Your task to perform on an android device: Search for the best coffee tables on Crate & Barrel Image 0: 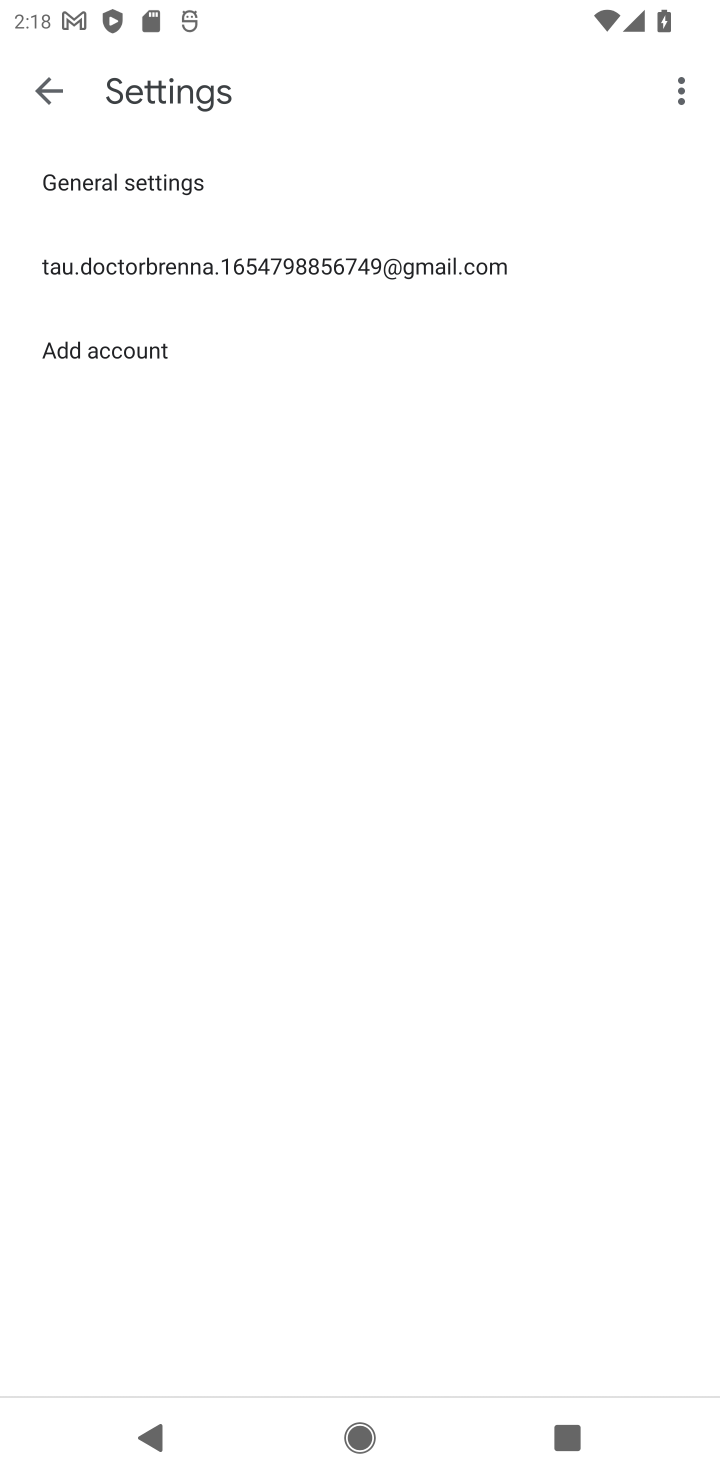
Step 0: press home button
Your task to perform on an android device: Search for the best coffee tables on Crate & Barrel Image 1: 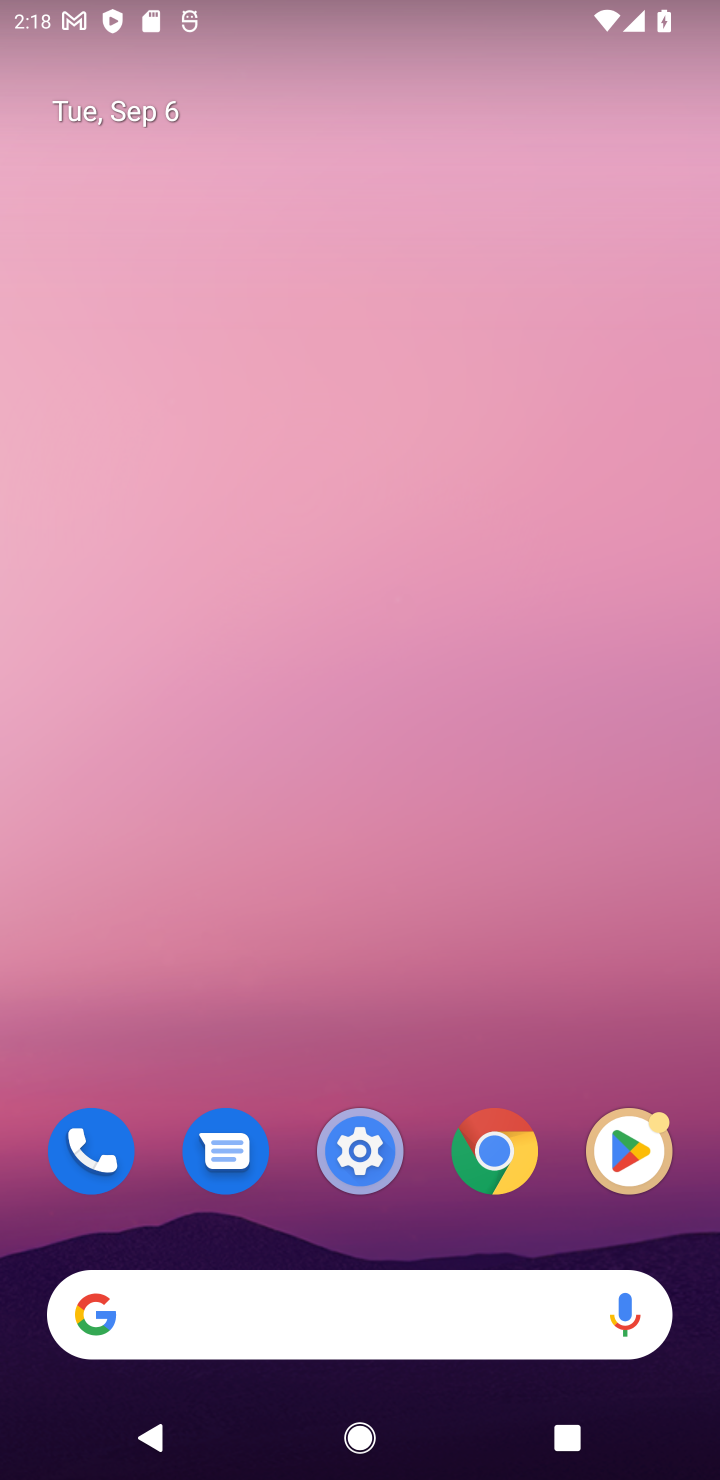
Step 1: click (512, 1131)
Your task to perform on an android device: Search for the best coffee tables on Crate & Barrel Image 2: 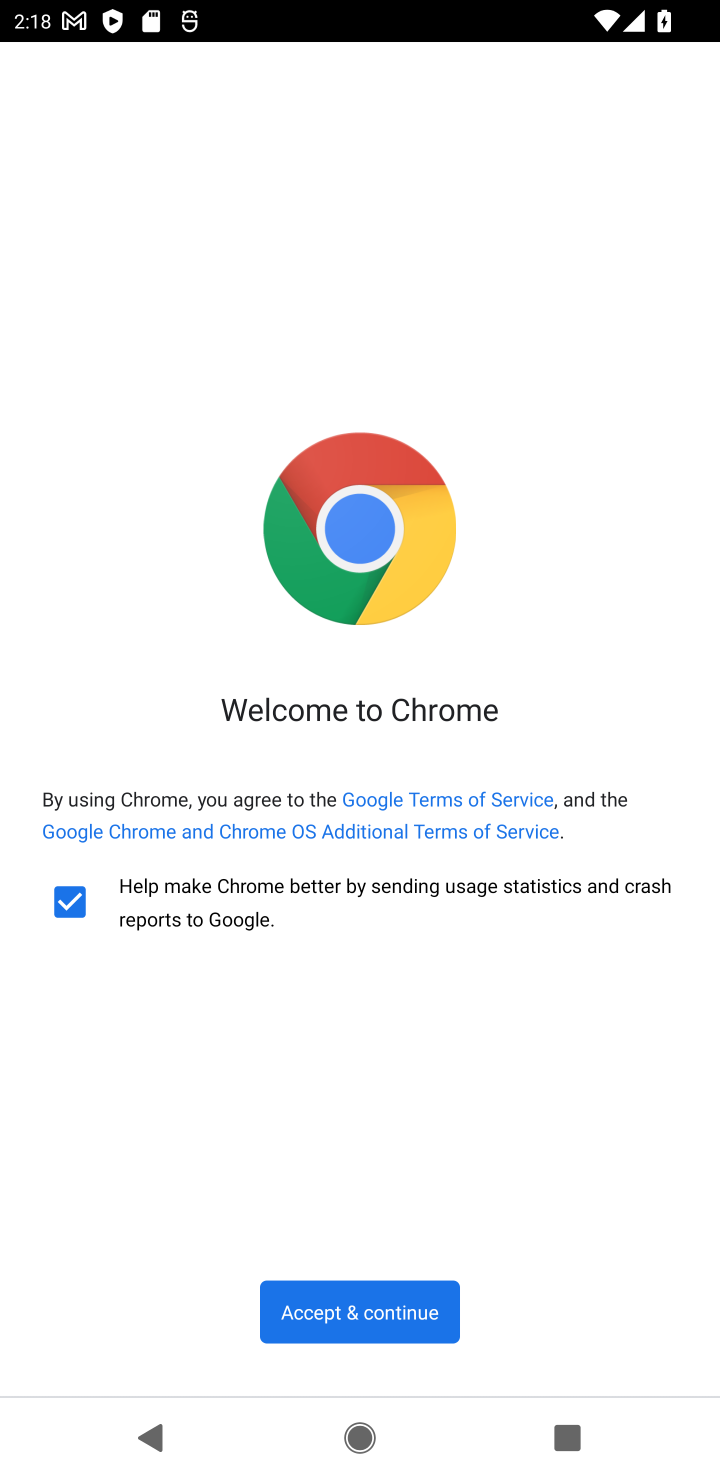
Step 2: click (400, 1318)
Your task to perform on an android device: Search for the best coffee tables on Crate & Barrel Image 3: 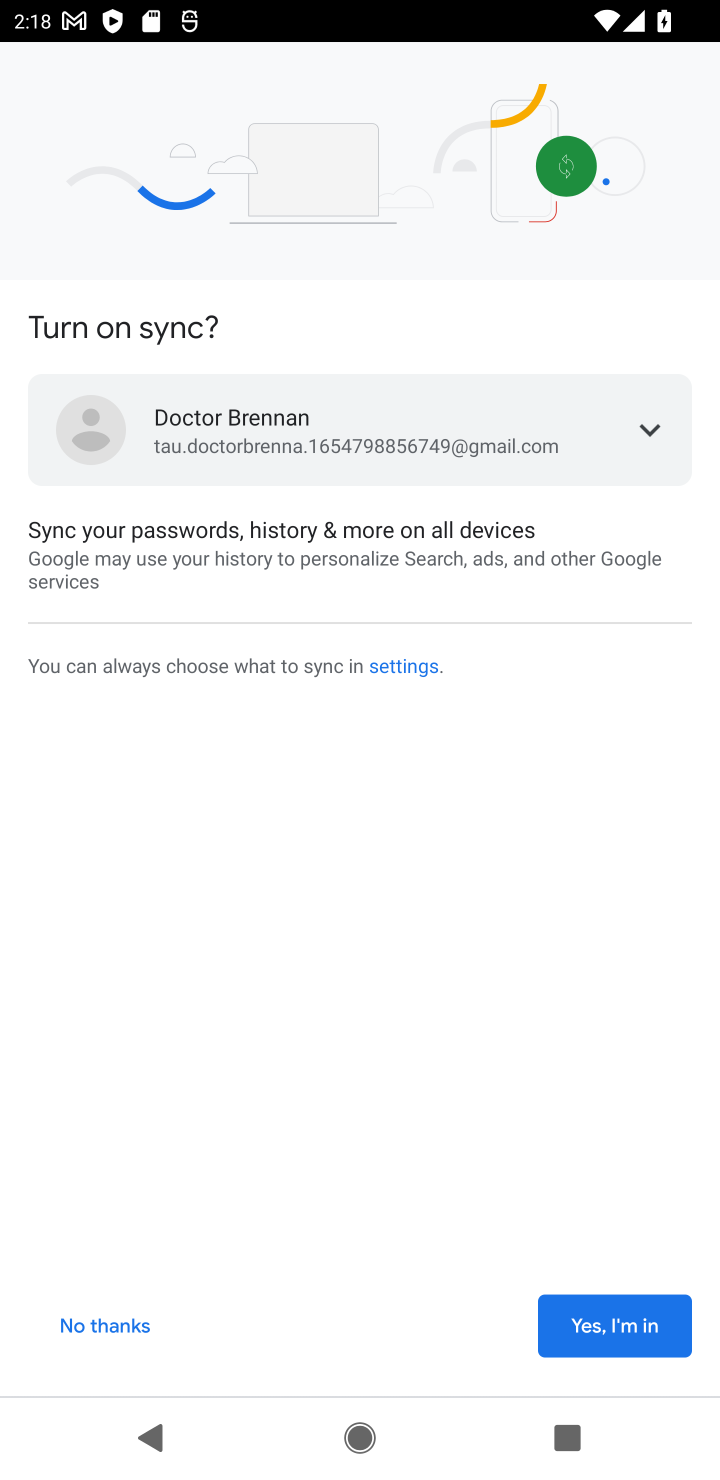
Step 3: click (605, 1321)
Your task to perform on an android device: Search for the best coffee tables on Crate & Barrel Image 4: 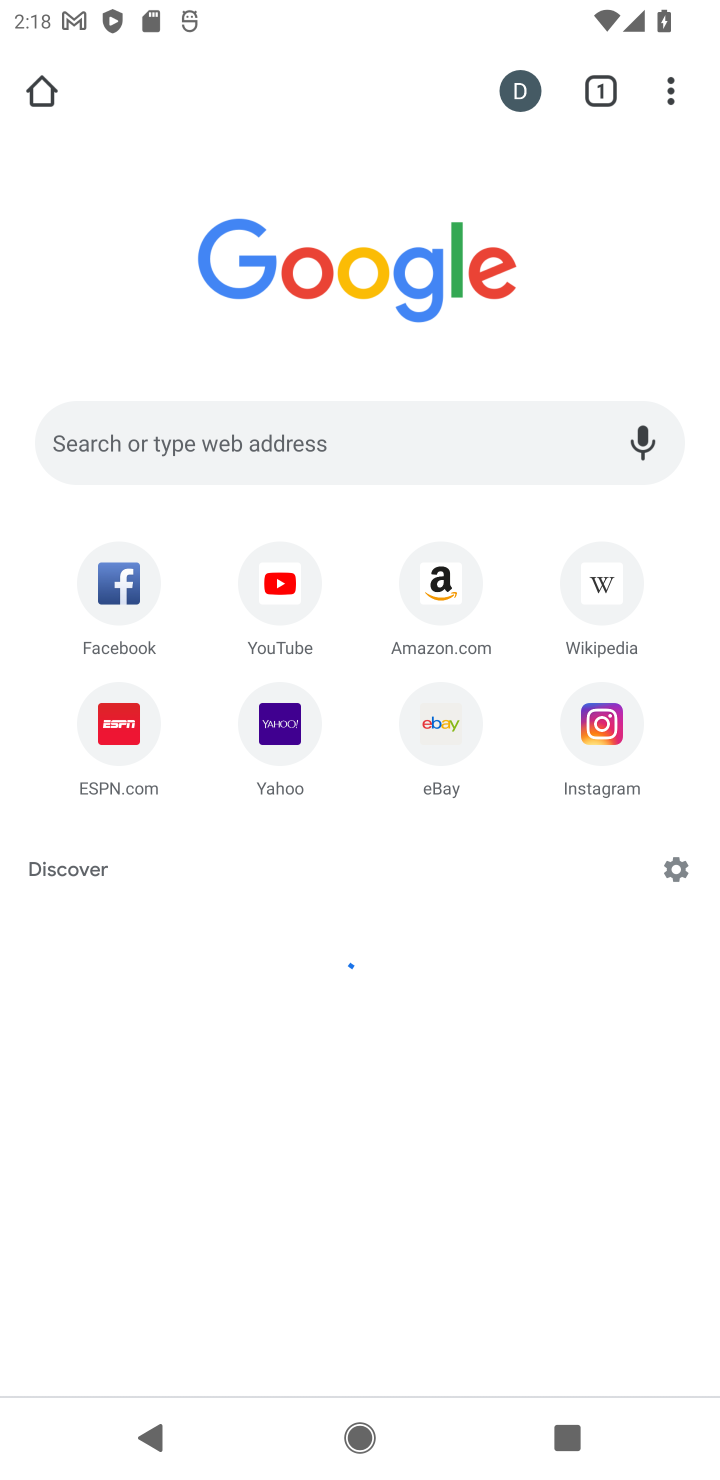
Step 4: click (278, 433)
Your task to perform on an android device: Search for the best coffee tables on Crate & Barrel Image 5: 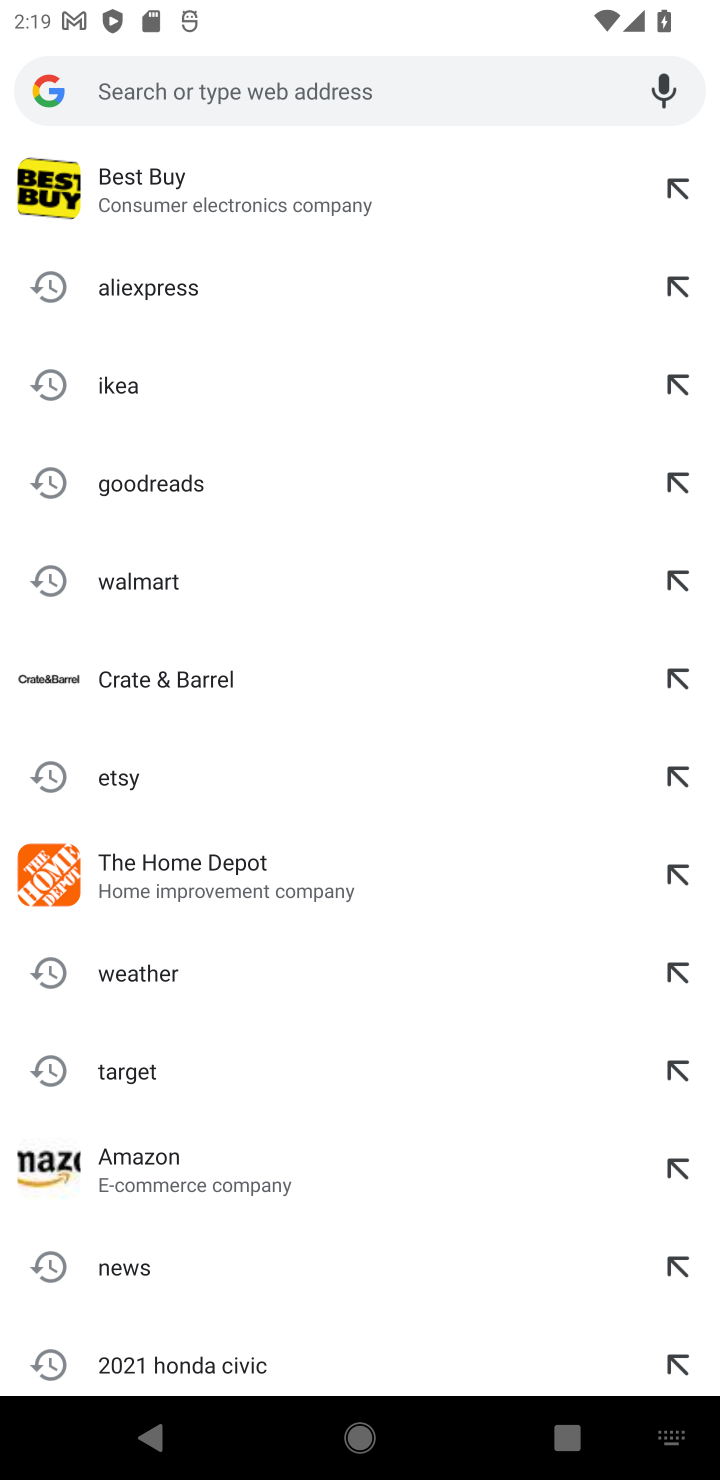
Step 5: type "cr"
Your task to perform on an android device: Search for the best coffee tables on Crate & Barrel Image 6: 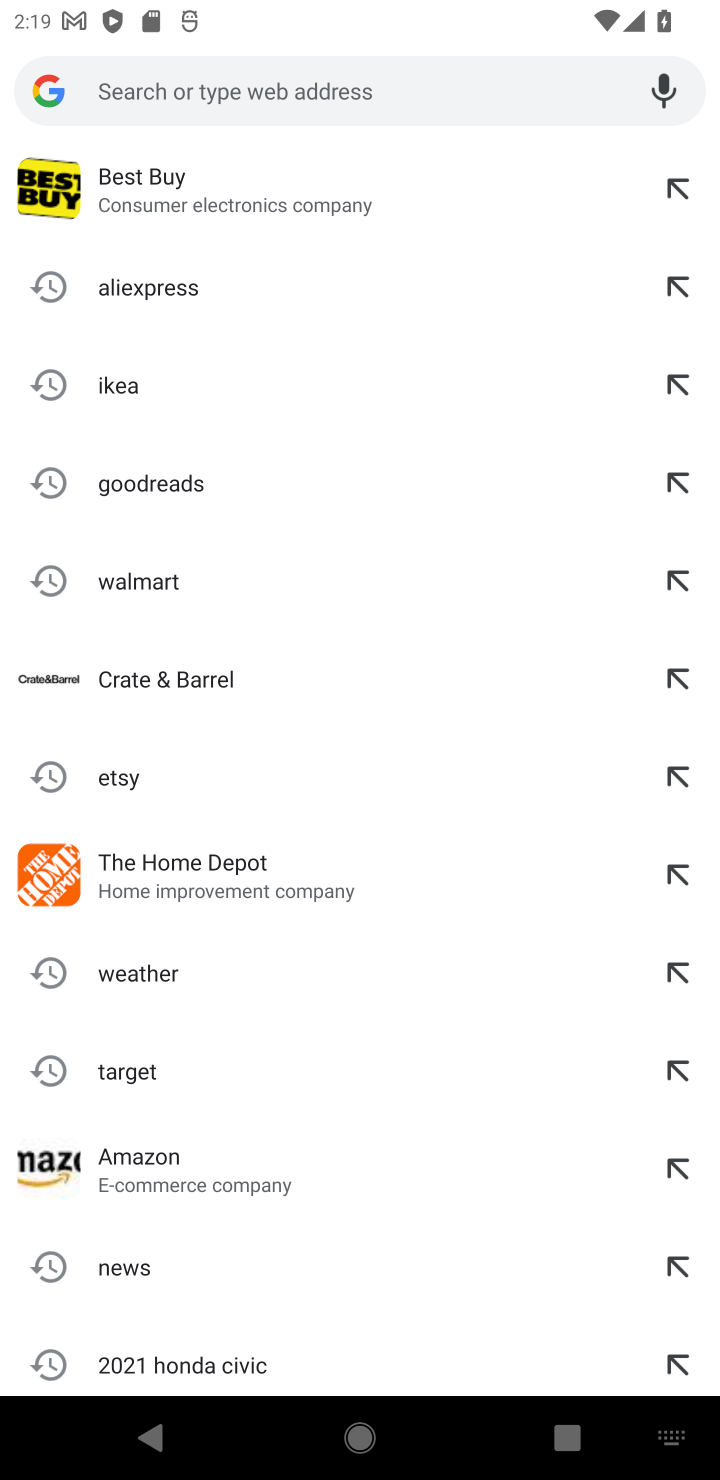
Step 6: click (182, 685)
Your task to perform on an android device: Search for the best coffee tables on Crate & Barrel Image 7: 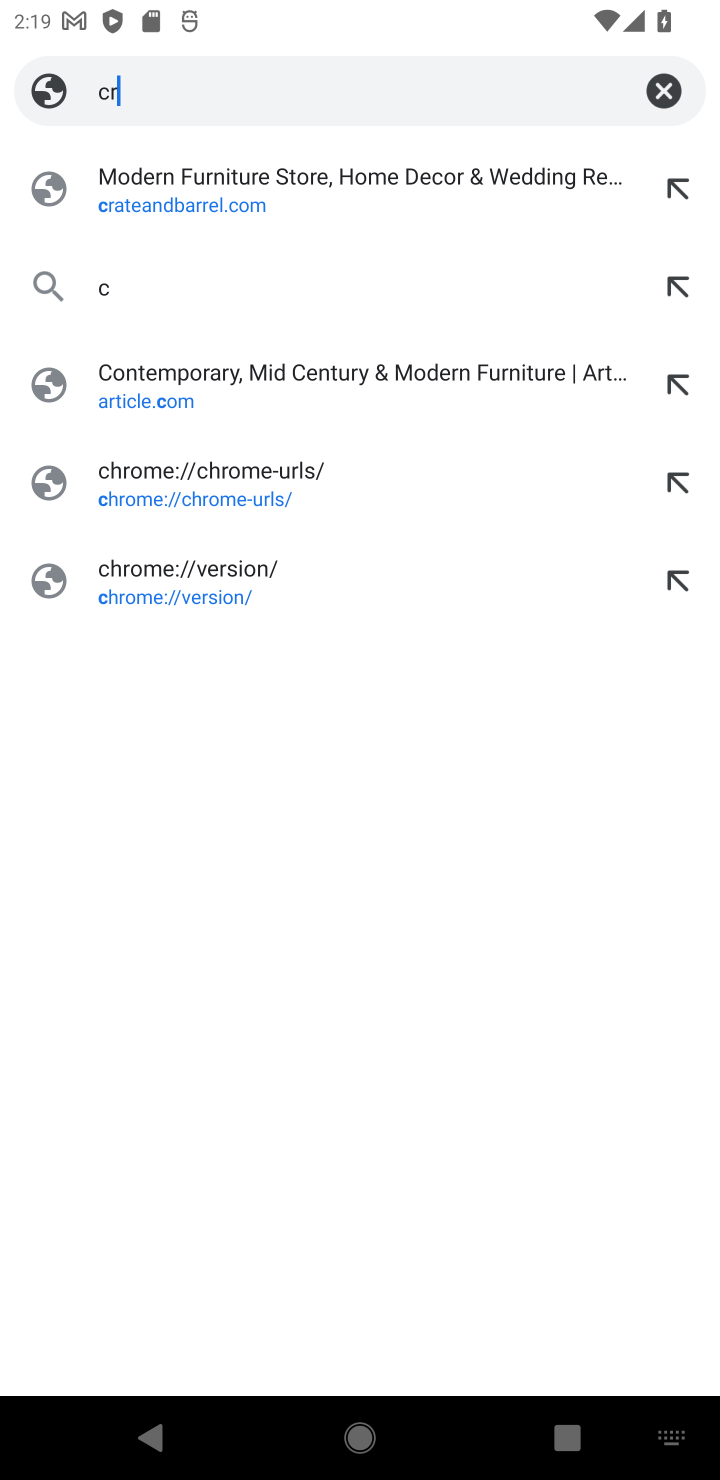
Step 7: type "crate & barrel"
Your task to perform on an android device: Search for the best coffee tables on Crate & Barrel Image 8: 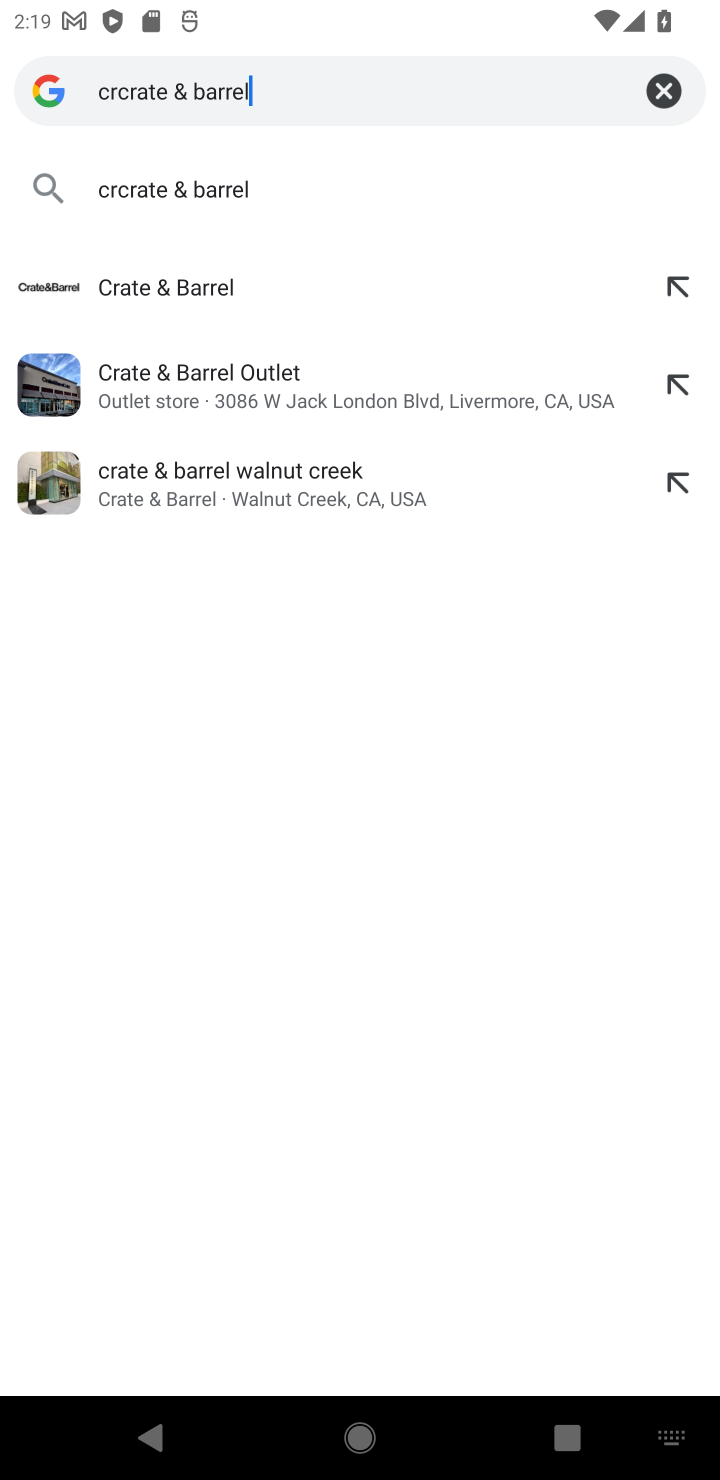
Step 8: click (115, 276)
Your task to perform on an android device: Search for the best coffee tables on Crate & Barrel Image 9: 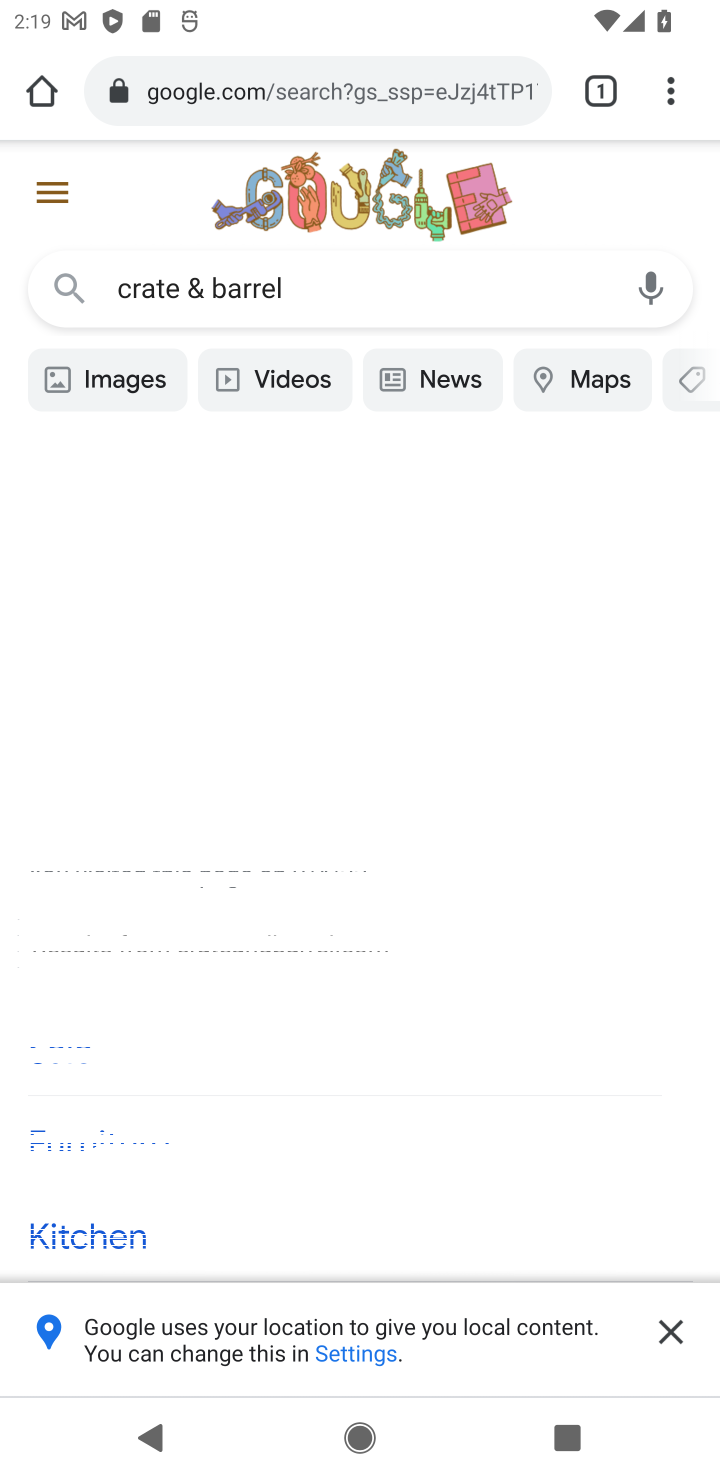
Step 9: click (672, 1338)
Your task to perform on an android device: Search for the best coffee tables on Crate & Barrel Image 10: 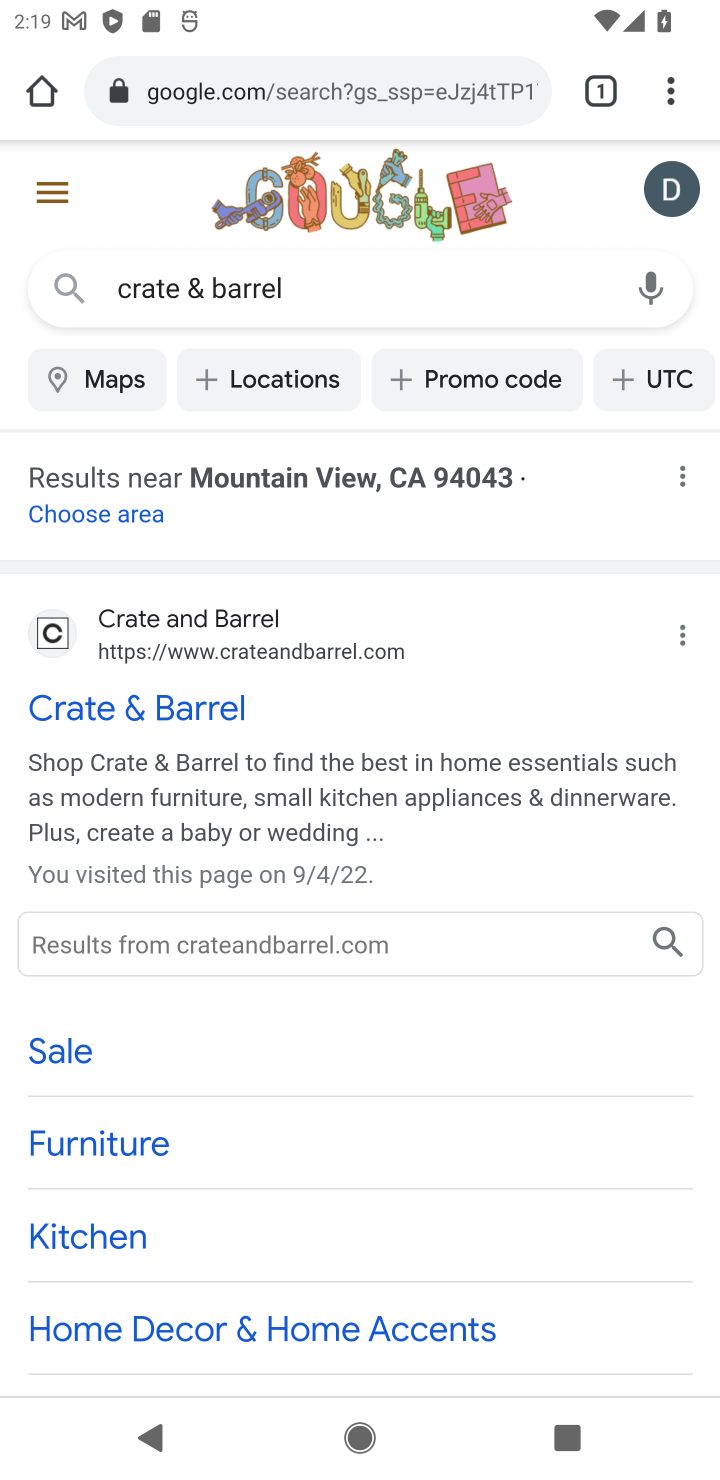
Step 10: drag from (462, 739) to (509, 458)
Your task to perform on an android device: Search for the best coffee tables on Crate & Barrel Image 11: 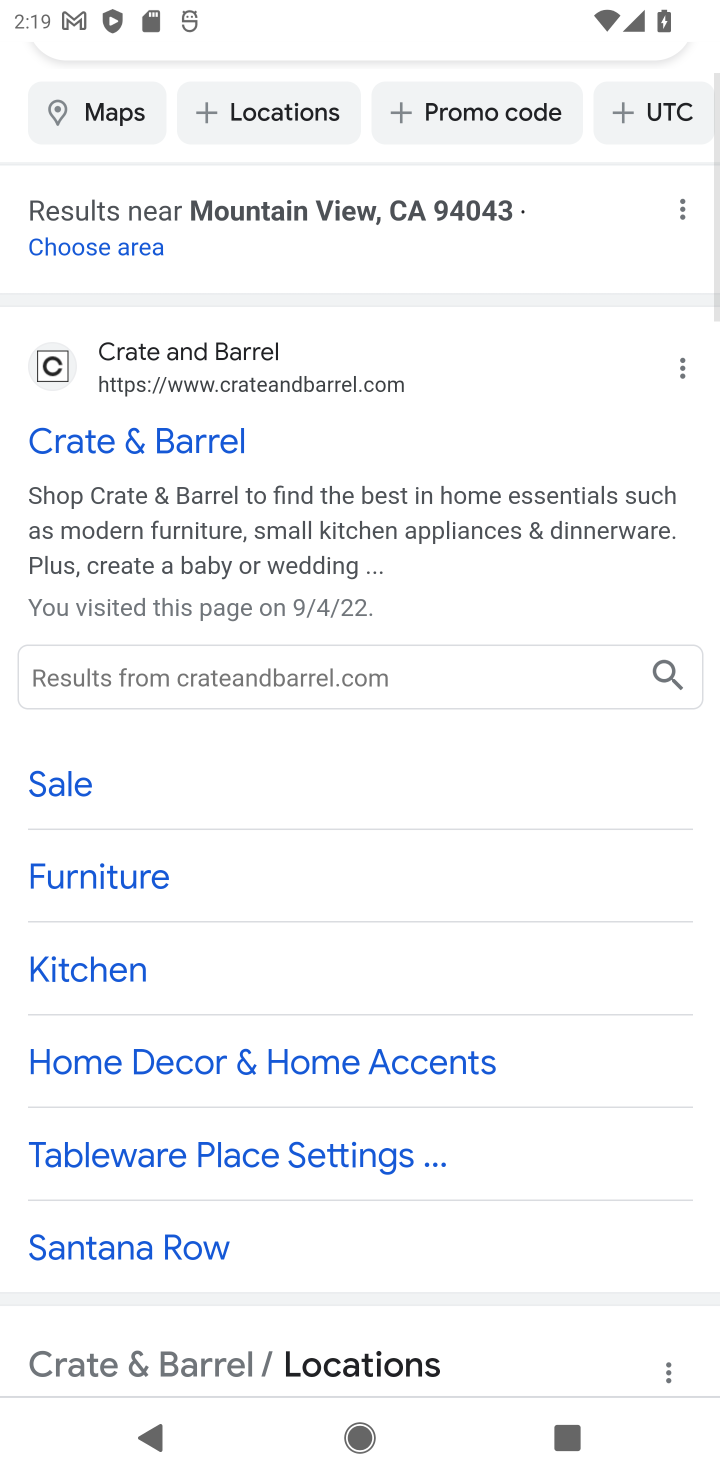
Step 11: drag from (555, 790) to (518, 326)
Your task to perform on an android device: Search for the best coffee tables on Crate & Barrel Image 12: 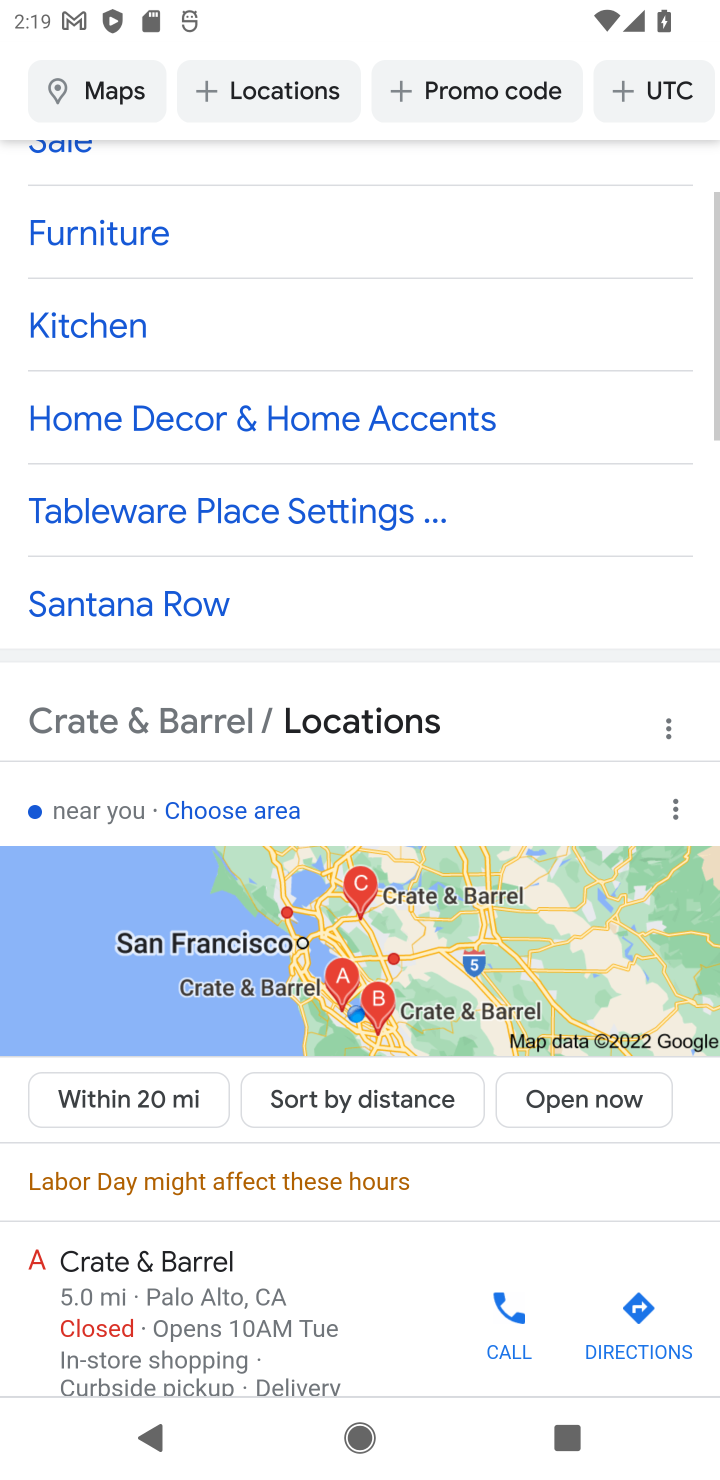
Step 12: drag from (299, 1354) to (418, 508)
Your task to perform on an android device: Search for the best coffee tables on Crate & Barrel Image 13: 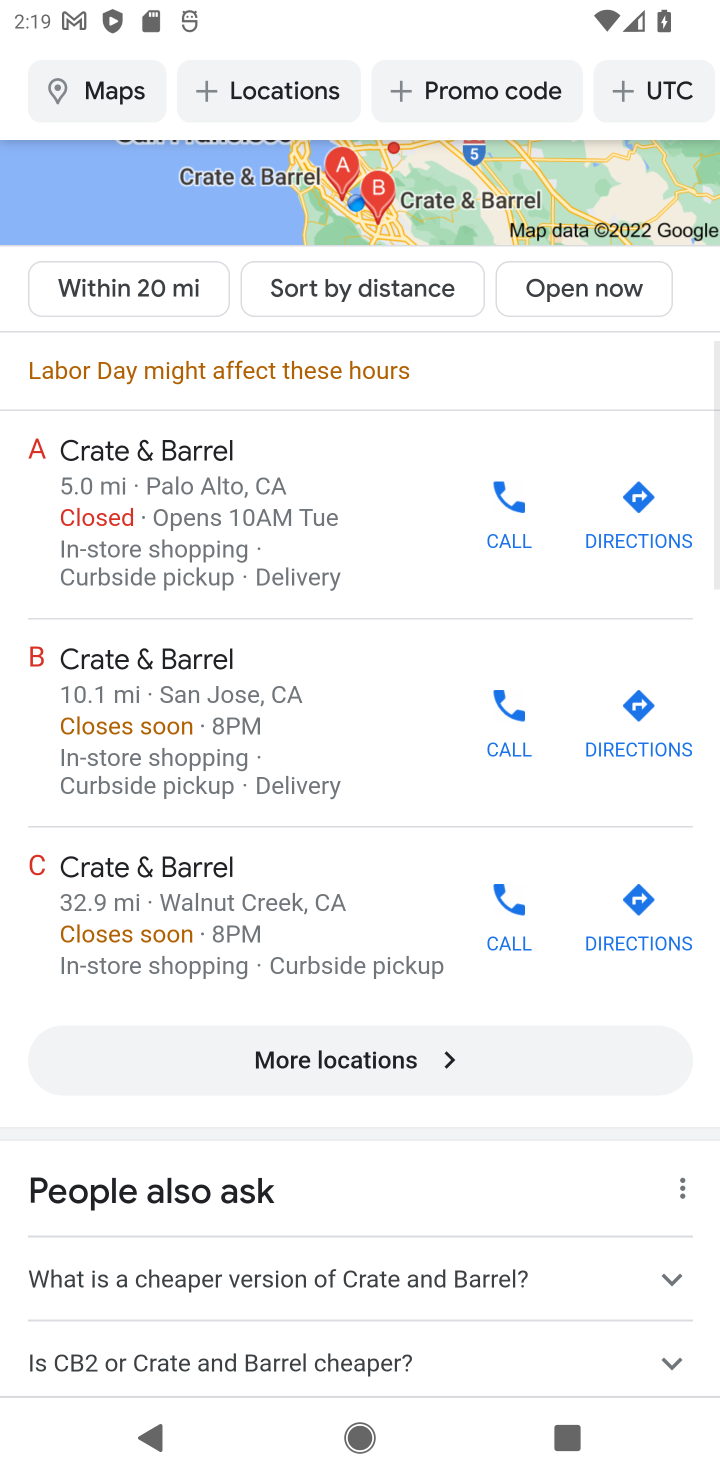
Step 13: drag from (330, 1090) to (456, 296)
Your task to perform on an android device: Search for the best coffee tables on Crate & Barrel Image 14: 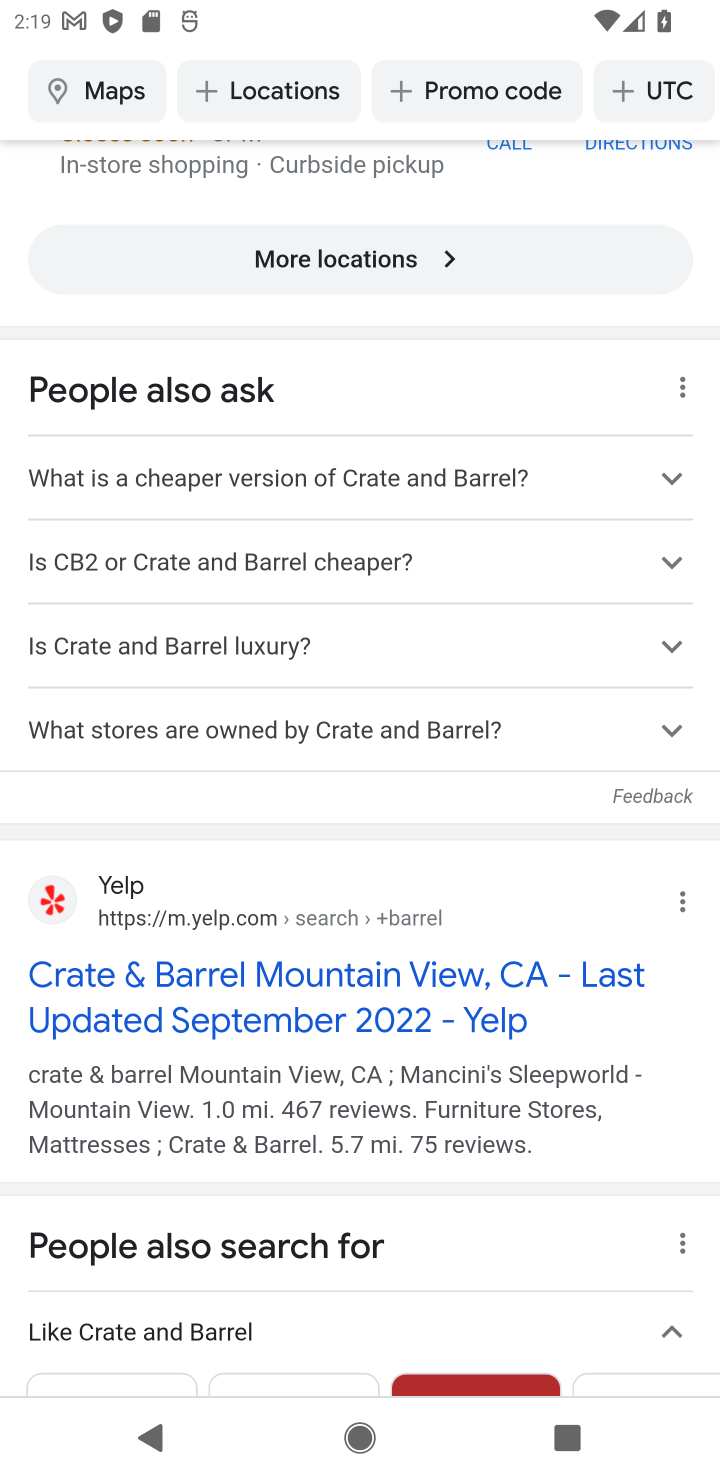
Step 14: drag from (470, 629) to (468, 1190)
Your task to perform on an android device: Search for the best coffee tables on Crate & Barrel Image 15: 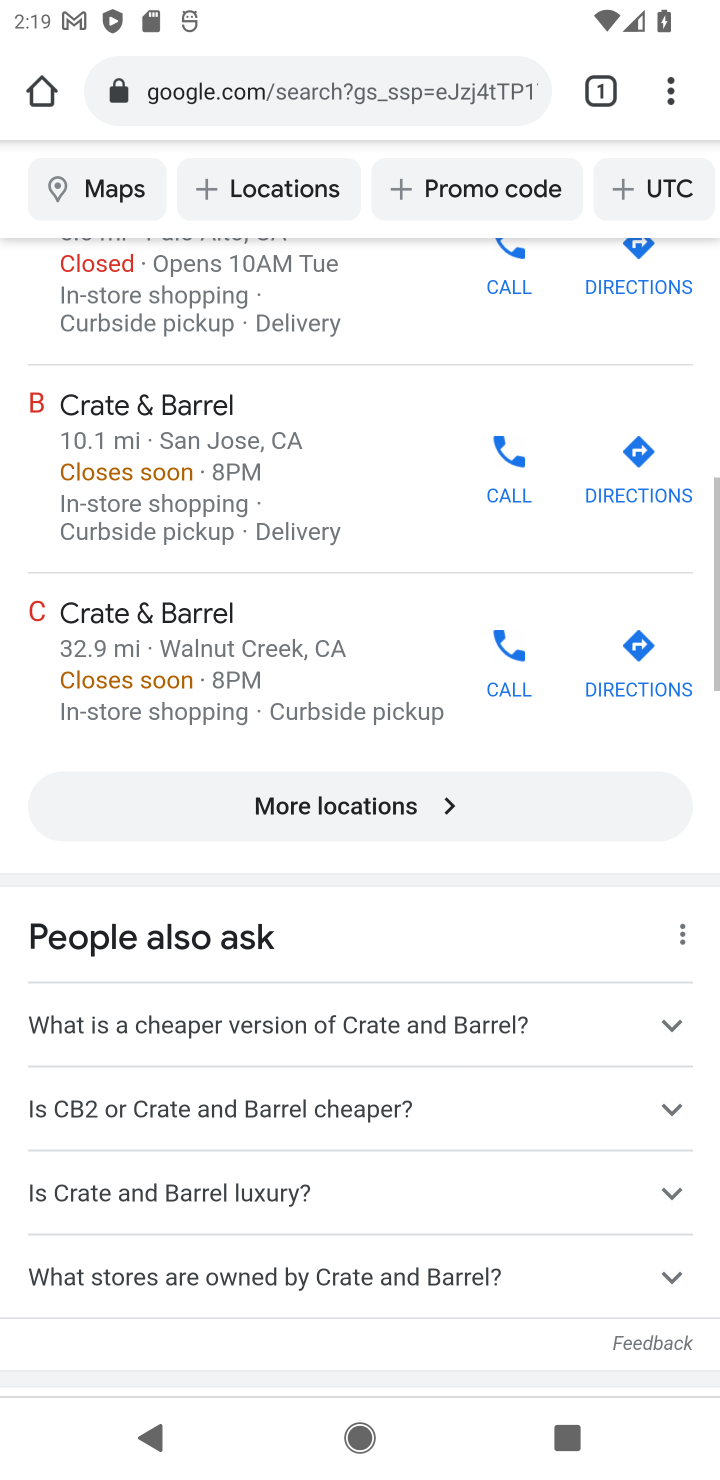
Step 15: drag from (327, 608) to (259, 1309)
Your task to perform on an android device: Search for the best coffee tables on Crate & Barrel Image 16: 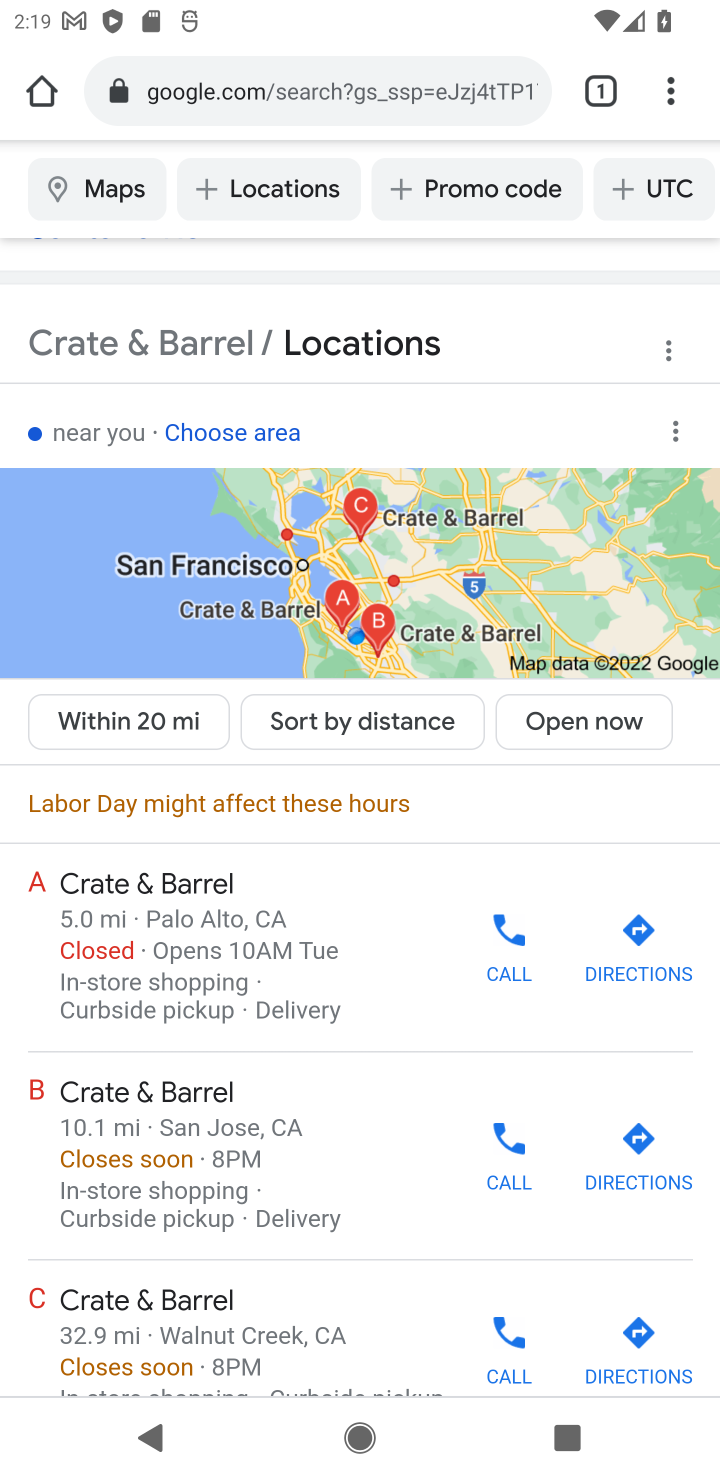
Step 16: drag from (476, 1030) to (480, 1233)
Your task to perform on an android device: Search for the best coffee tables on Crate & Barrel Image 17: 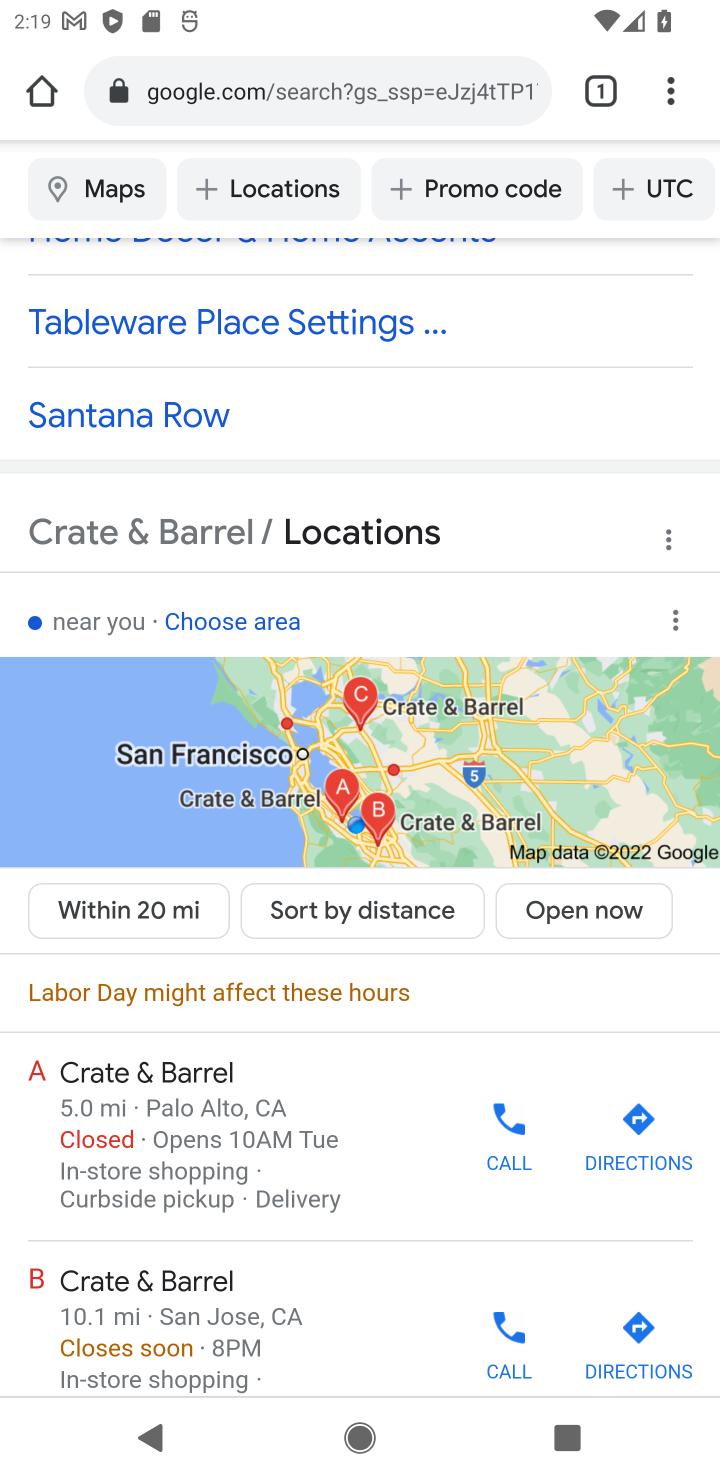
Step 17: drag from (576, 510) to (460, 1359)
Your task to perform on an android device: Search for the best coffee tables on Crate & Barrel Image 18: 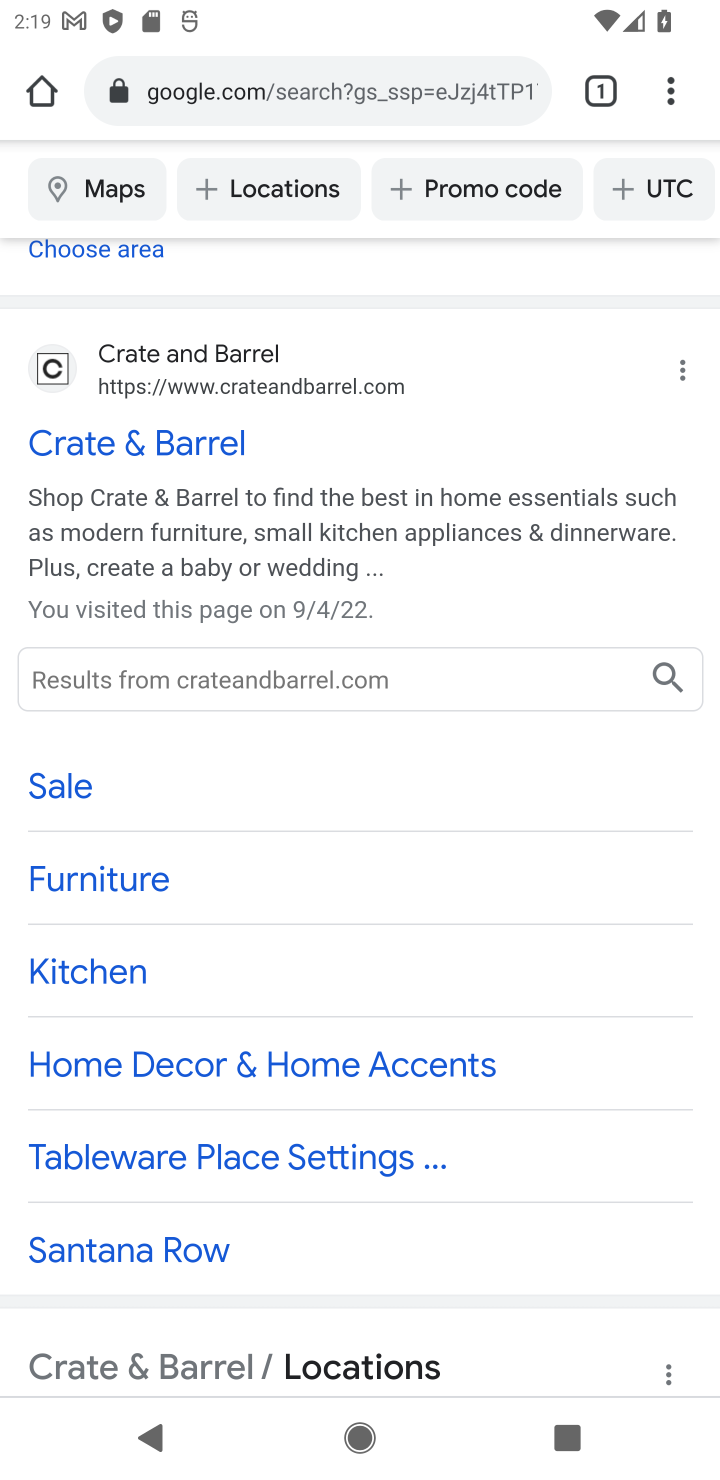
Step 18: click (183, 441)
Your task to perform on an android device: Search for the best coffee tables on Crate & Barrel Image 19: 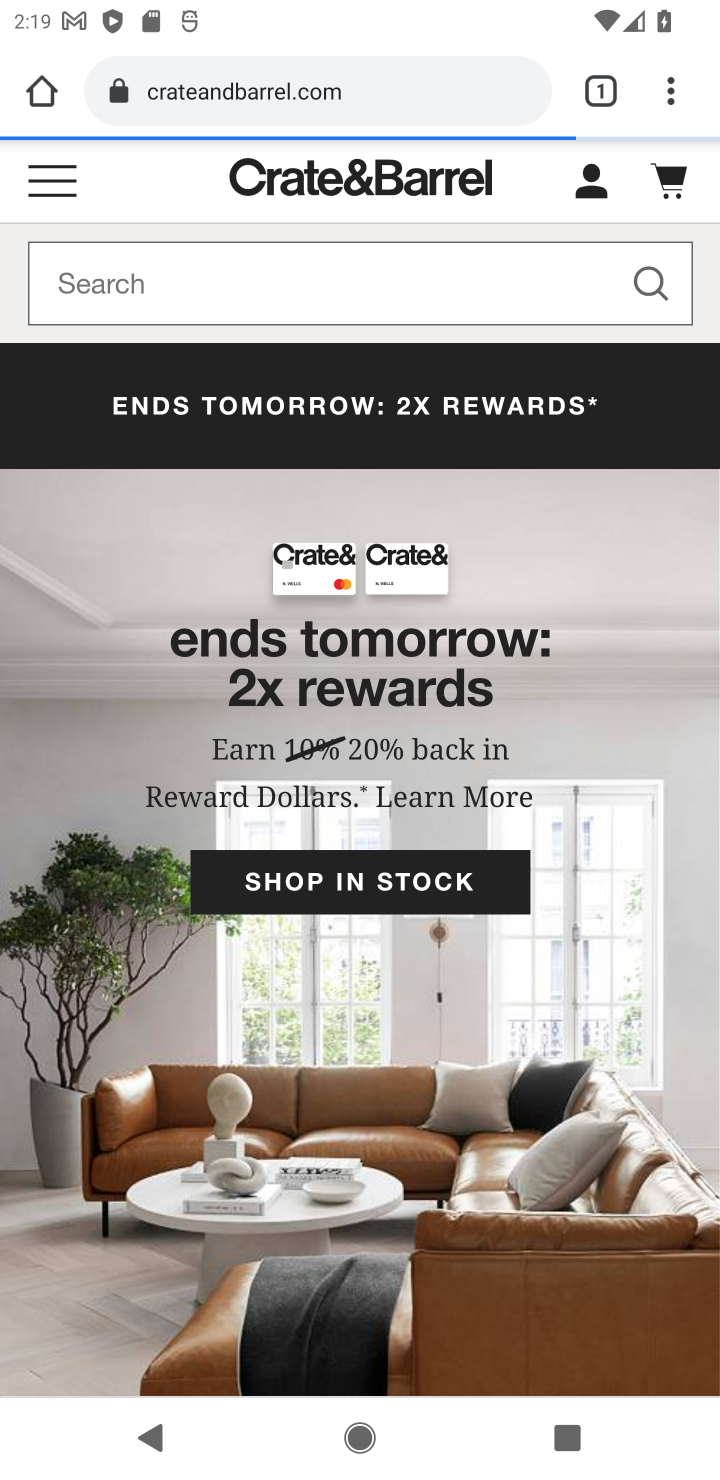
Step 19: click (221, 265)
Your task to perform on an android device: Search for the best coffee tables on Crate & Barrel Image 20: 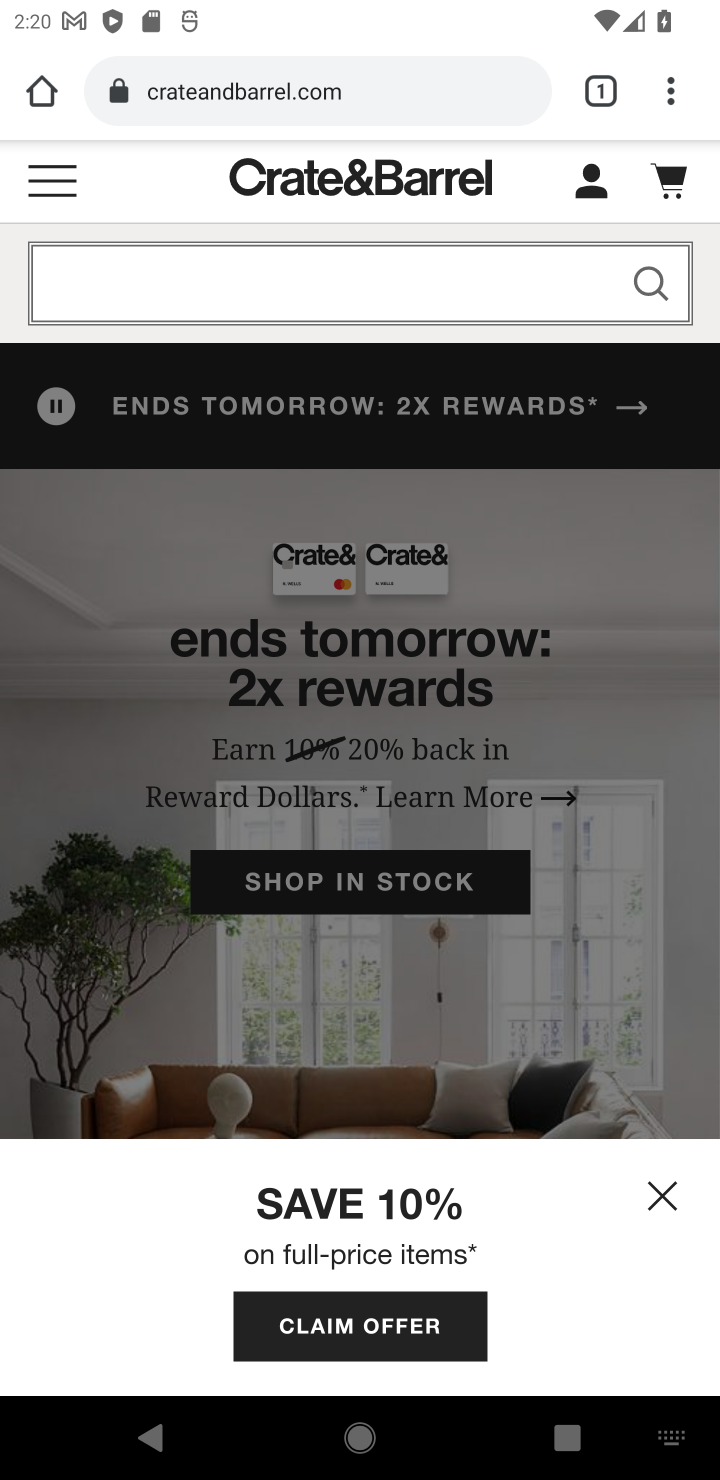
Step 20: type "coffee table"
Your task to perform on an android device: Search for the best coffee tables on Crate & Barrel Image 21: 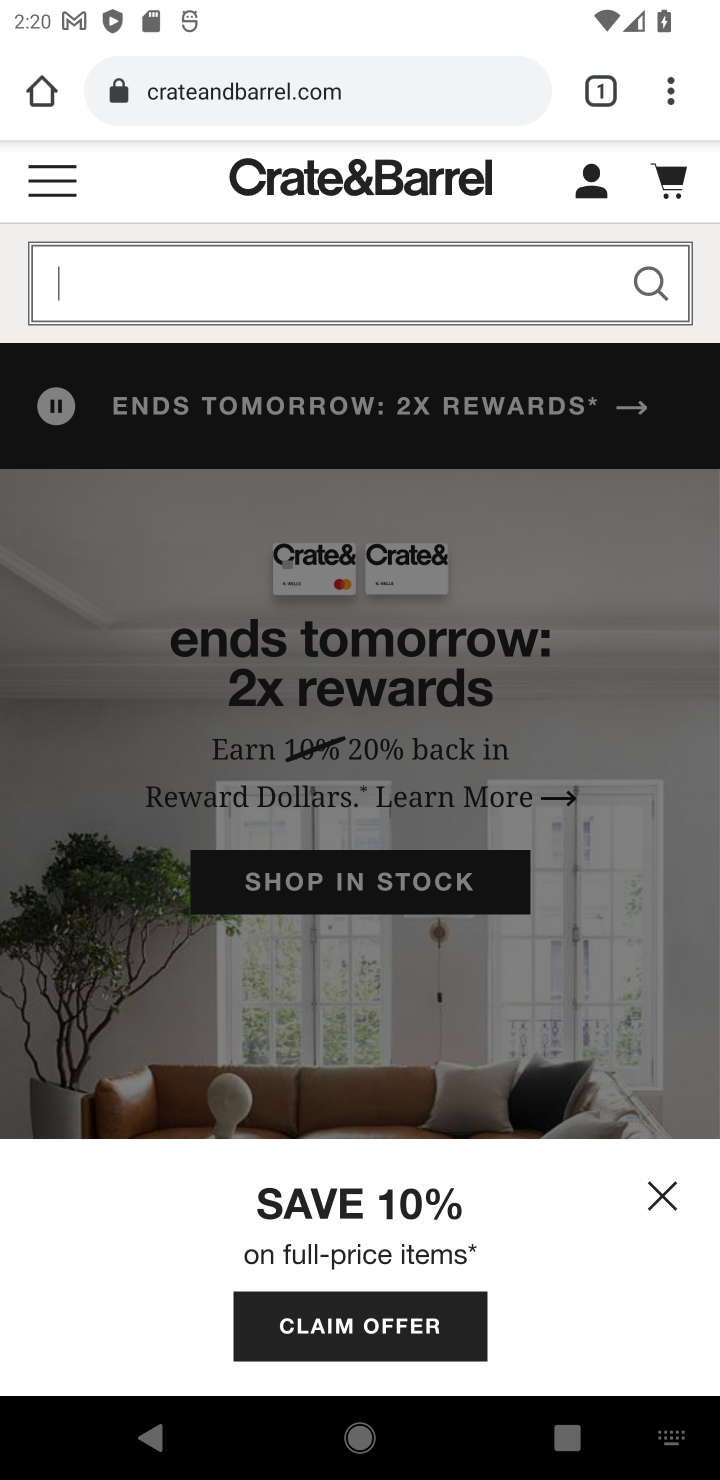
Step 21: type ""
Your task to perform on an android device: Search for the best coffee tables on Crate & Barrel Image 22: 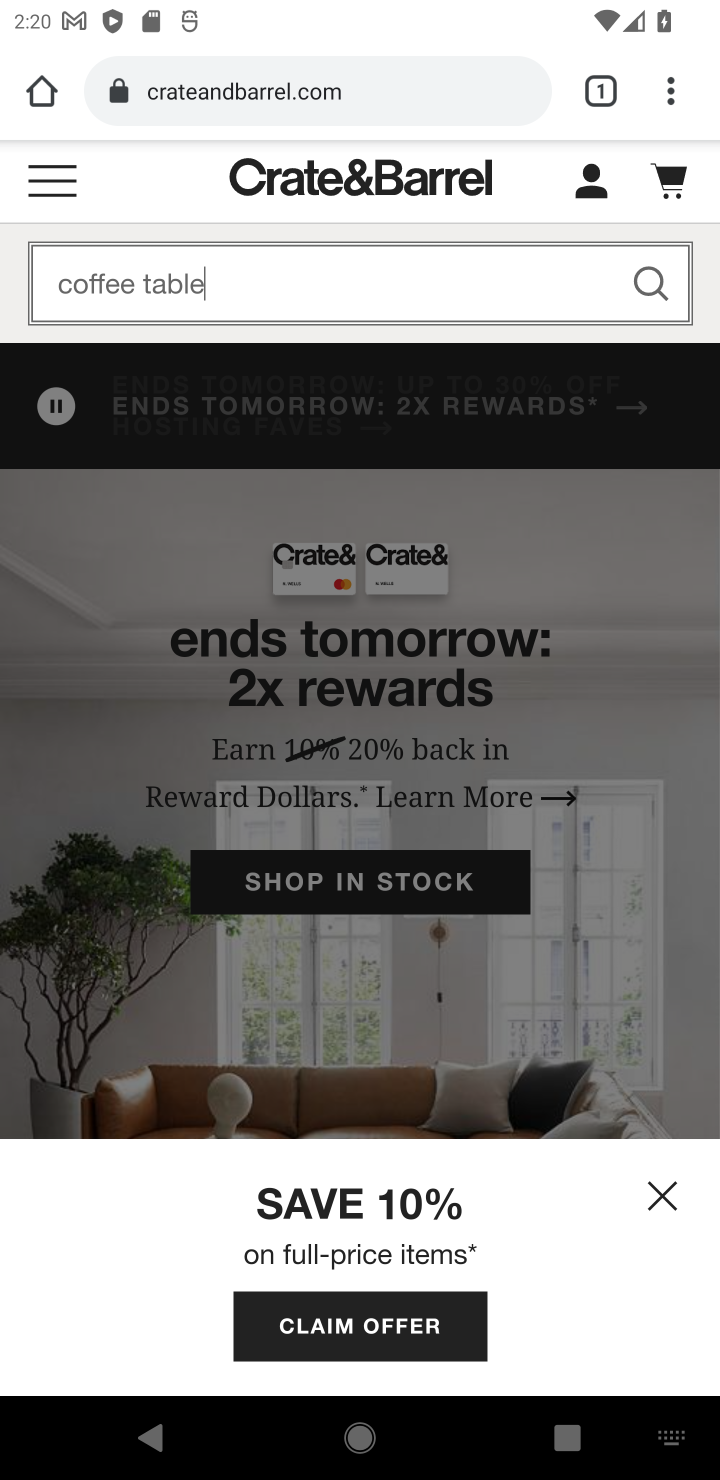
Step 22: click (664, 1195)
Your task to perform on an android device: Search for the best coffee tables on Crate & Barrel Image 23: 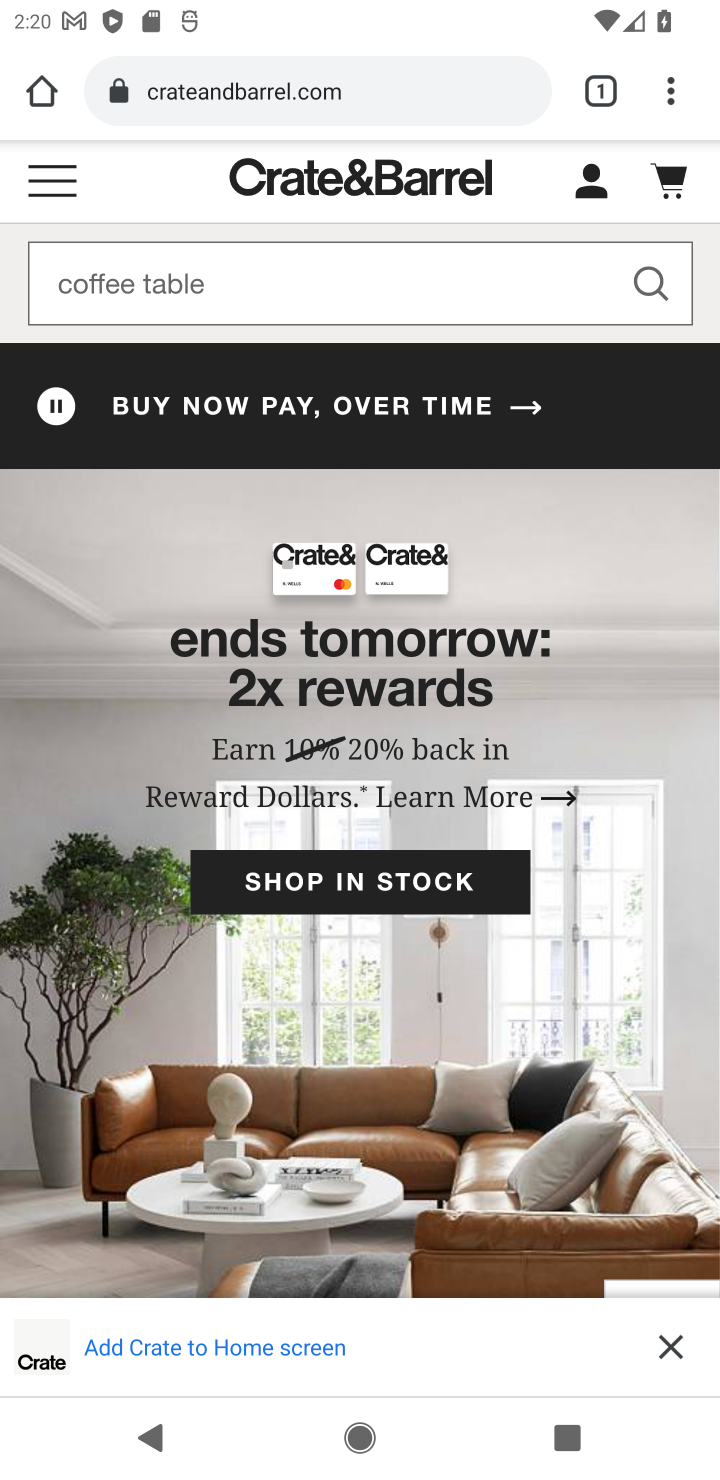
Step 23: press enter
Your task to perform on an android device: Search for the best coffee tables on Crate & Barrel Image 24: 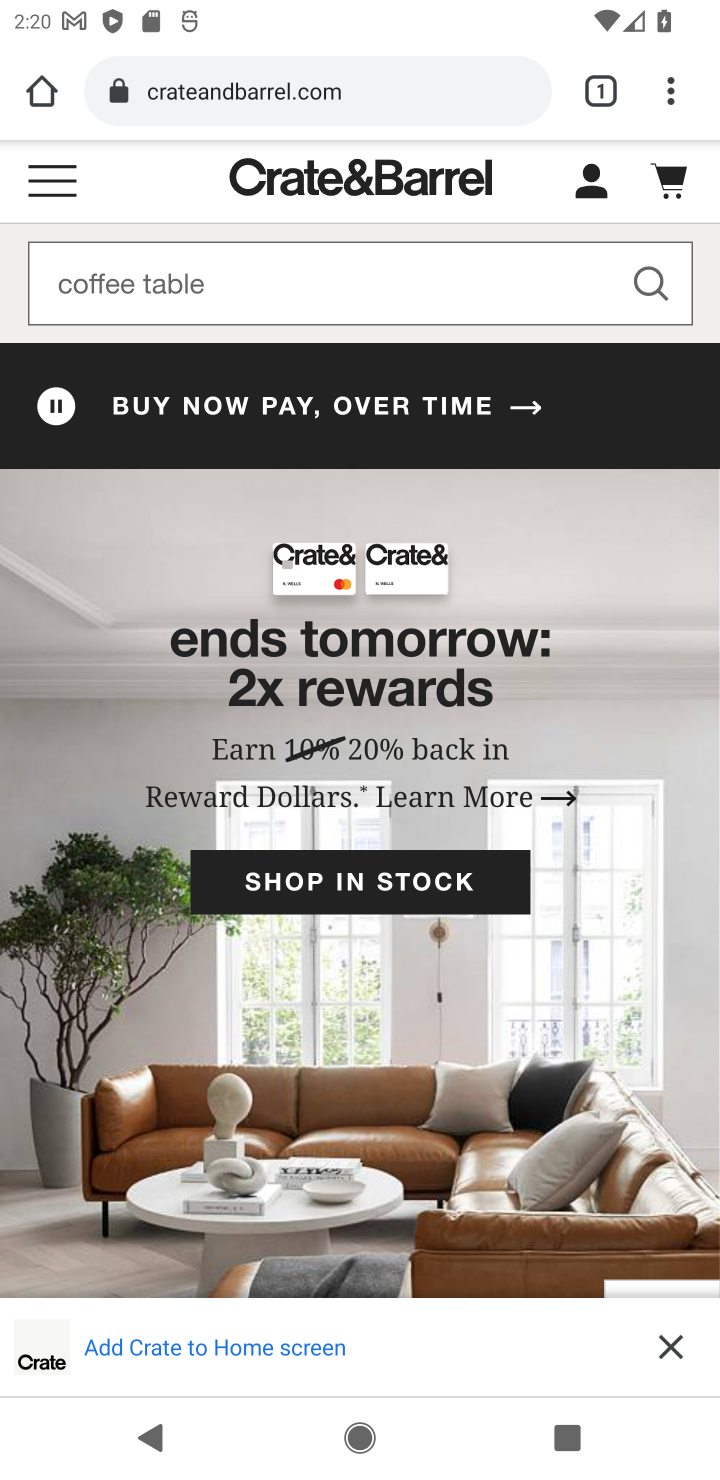
Step 24: click (672, 1341)
Your task to perform on an android device: Search for the best coffee tables on Crate & Barrel Image 25: 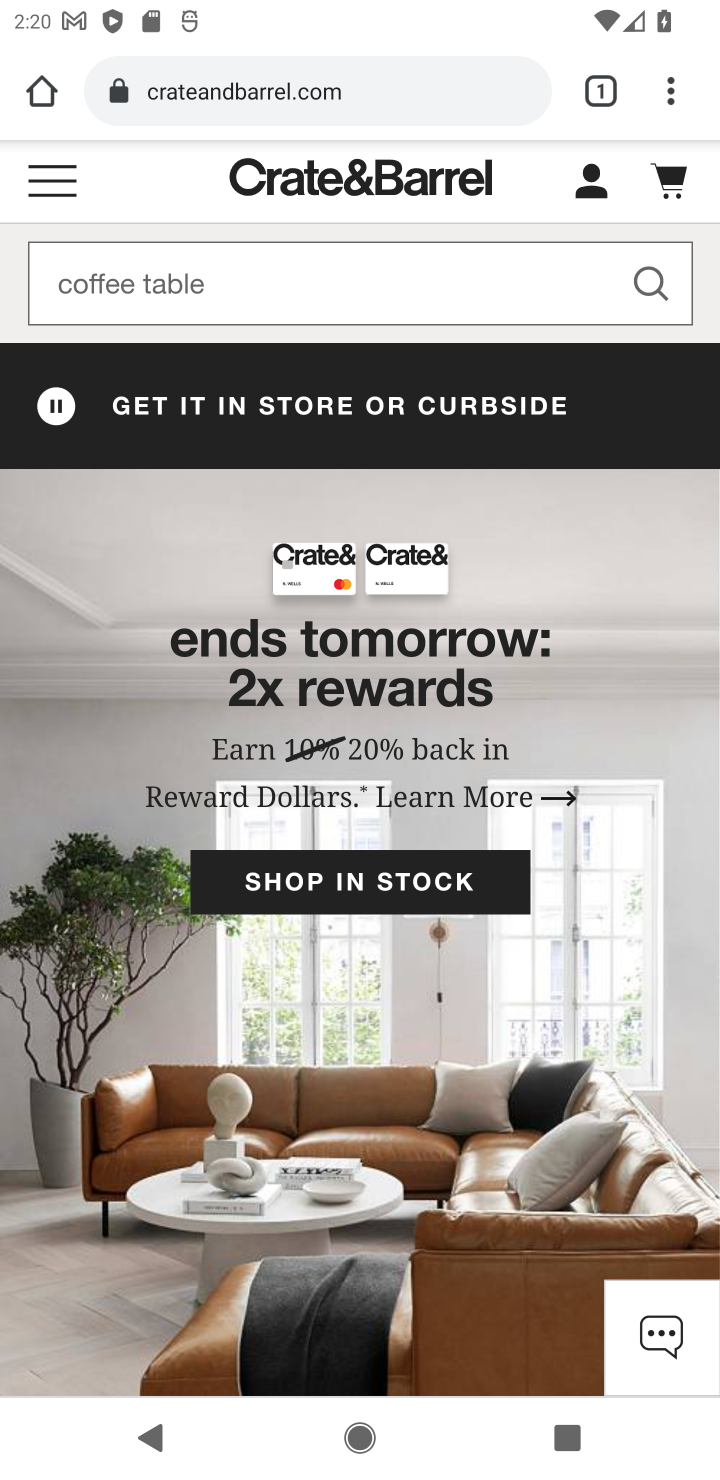
Step 25: drag from (317, 1209) to (198, 850)
Your task to perform on an android device: Search for the best coffee tables on Crate & Barrel Image 26: 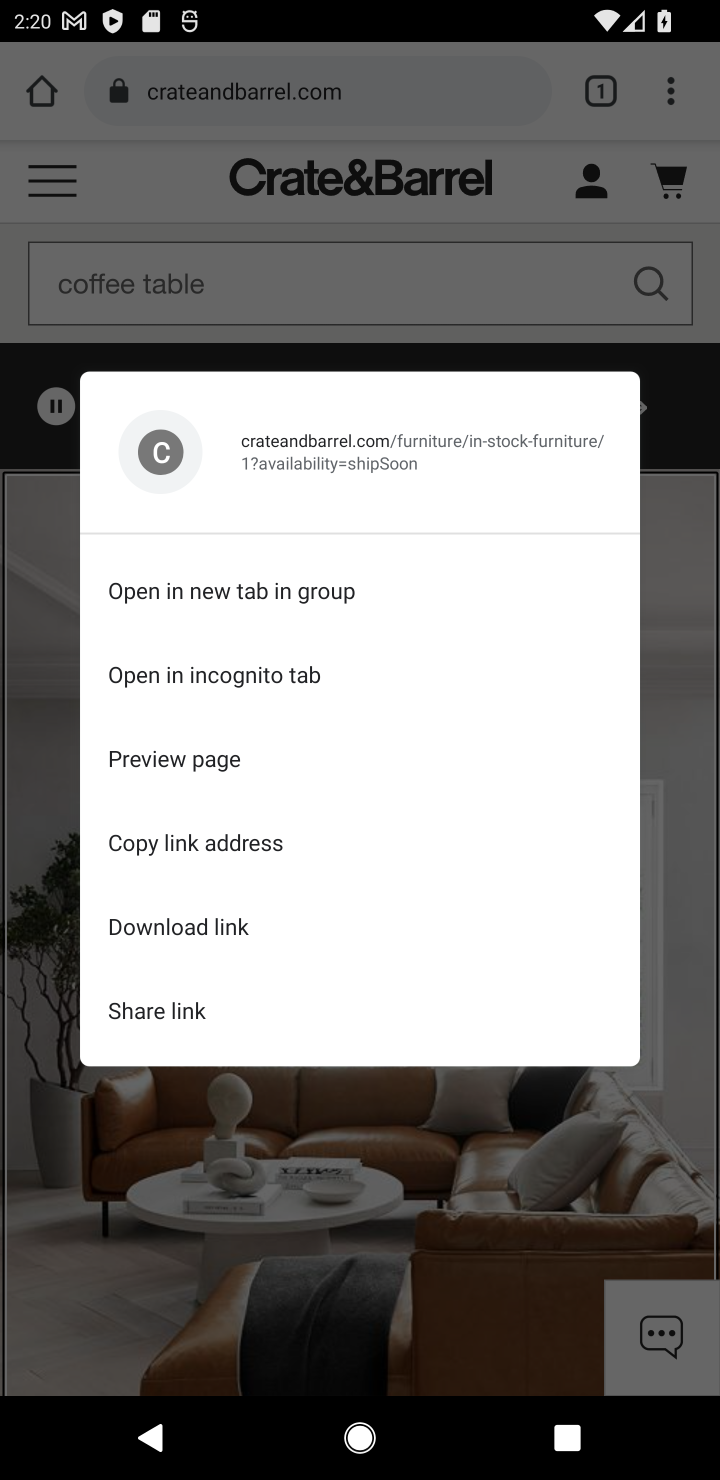
Step 26: click (179, 1255)
Your task to perform on an android device: Search for the best coffee tables on Crate & Barrel Image 27: 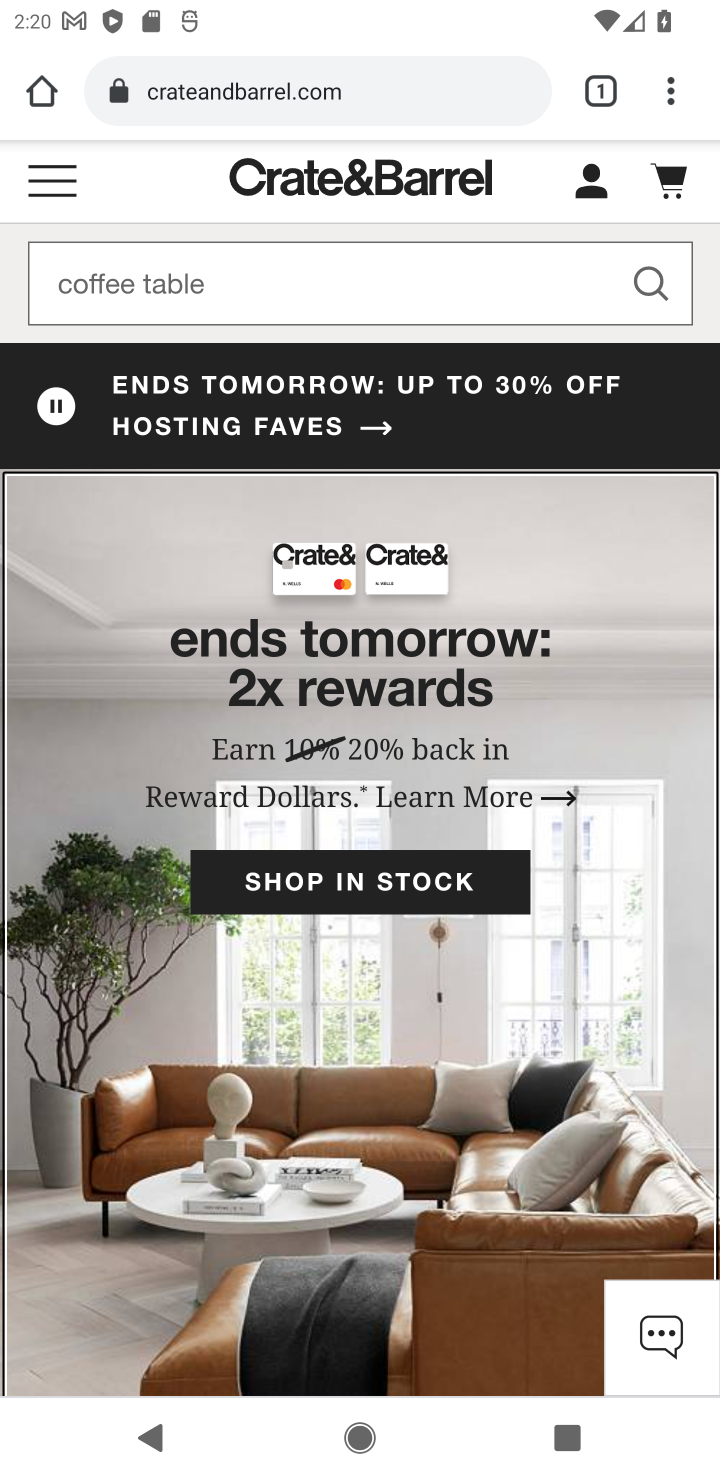
Step 27: drag from (561, 938) to (489, 528)
Your task to perform on an android device: Search for the best coffee tables on Crate & Barrel Image 28: 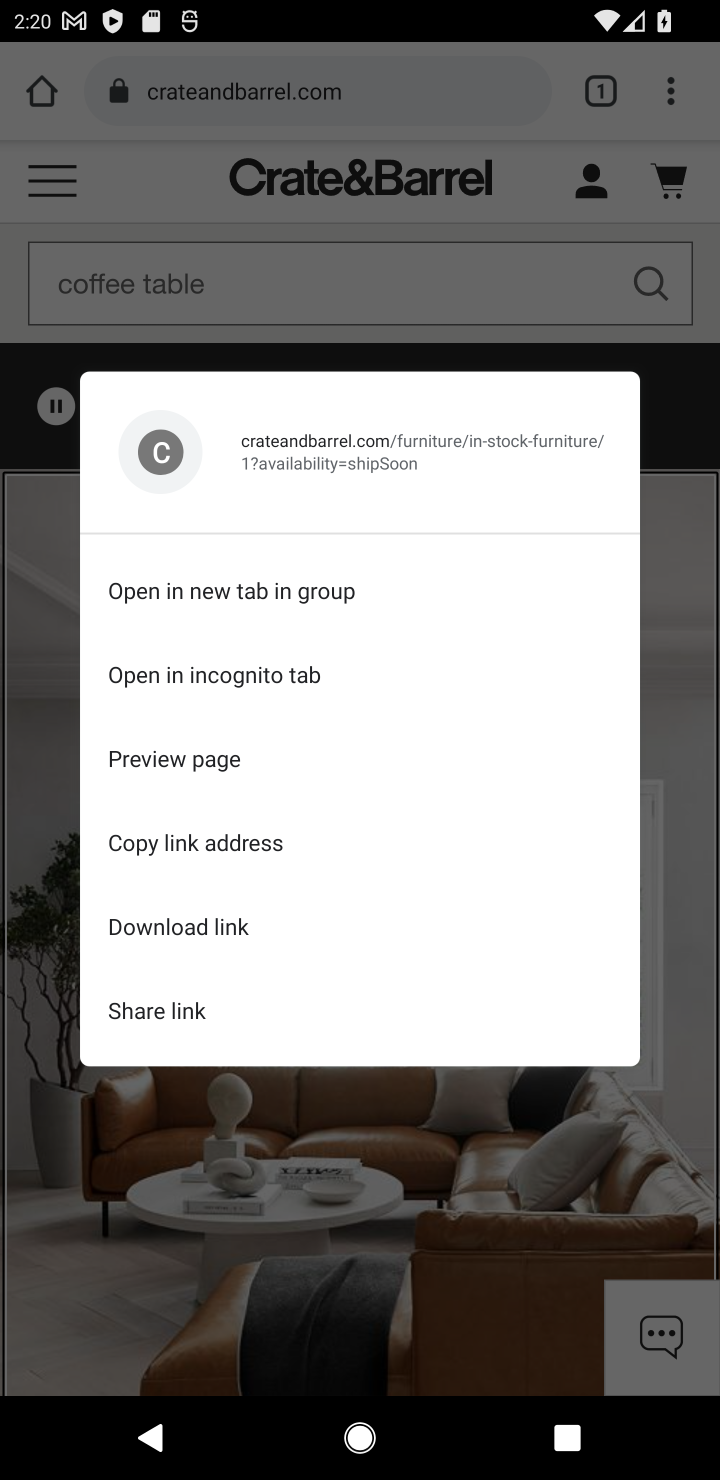
Step 28: click (677, 1151)
Your task to perform on an android device: Search for the best coffee tables on Crate & Barrel Image 29: 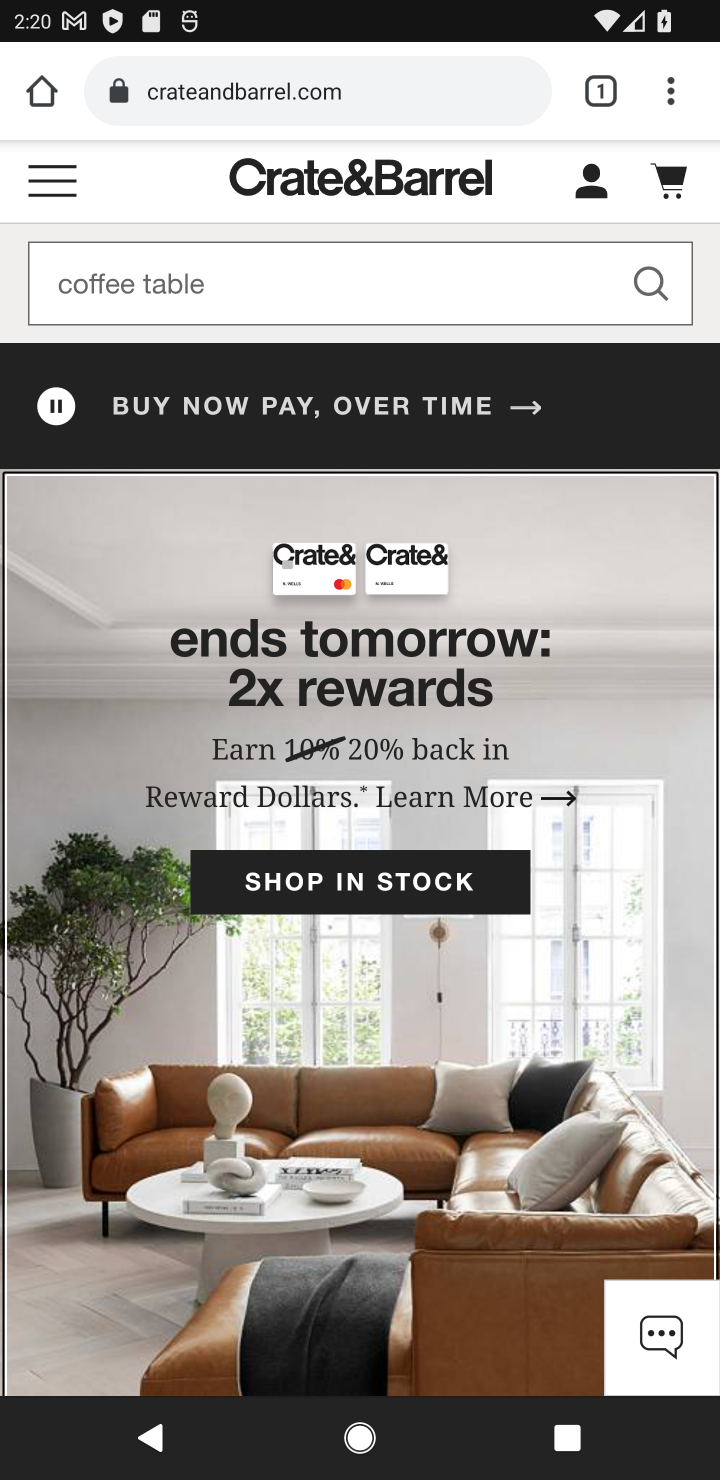
Step 29: drag from (678, 1070) to (514, 447)
Your task to perform on an android device: Search for the best coffee tables on Crate & Barrel Image 30: 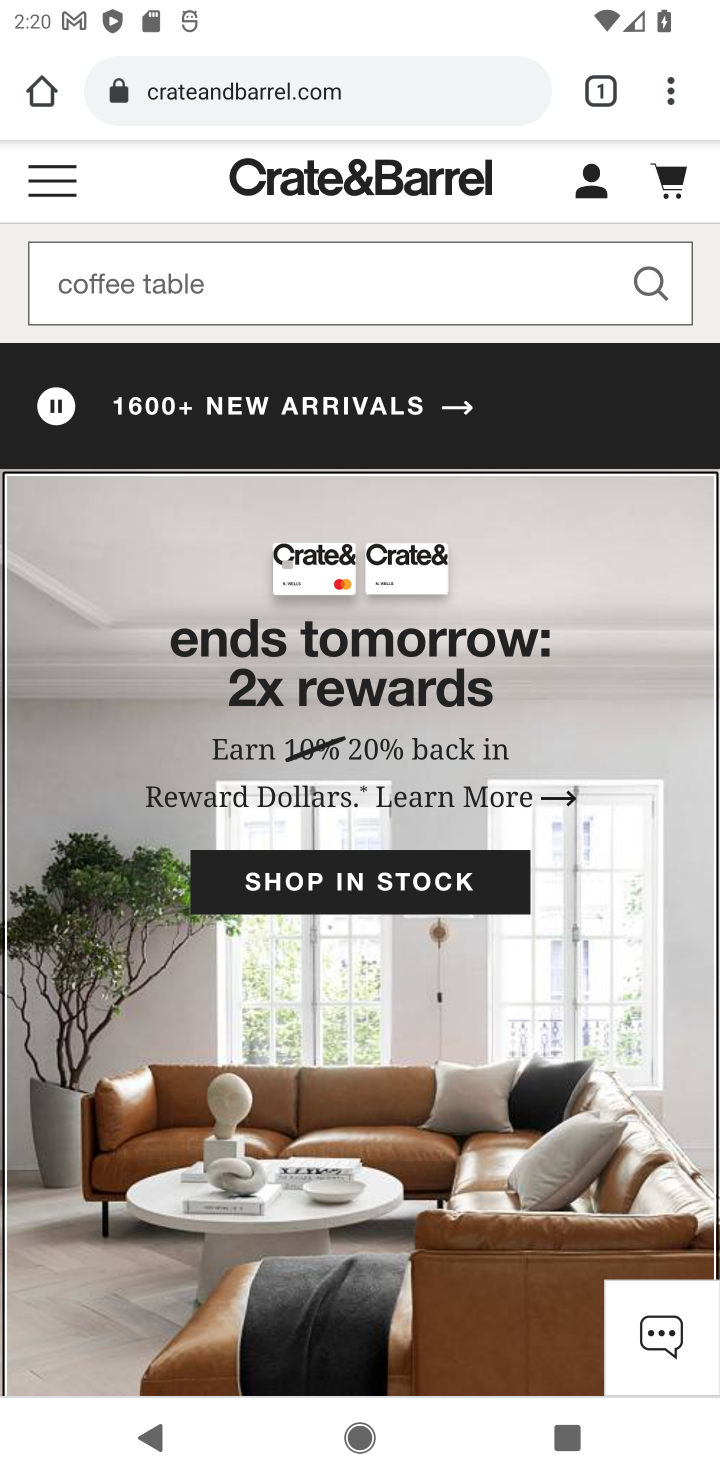
Step 30: drag from (491, 586) to (228, 280)
Your task to perform on an android device: Search for the best coffee tables on Crate & Barrel Image 31: 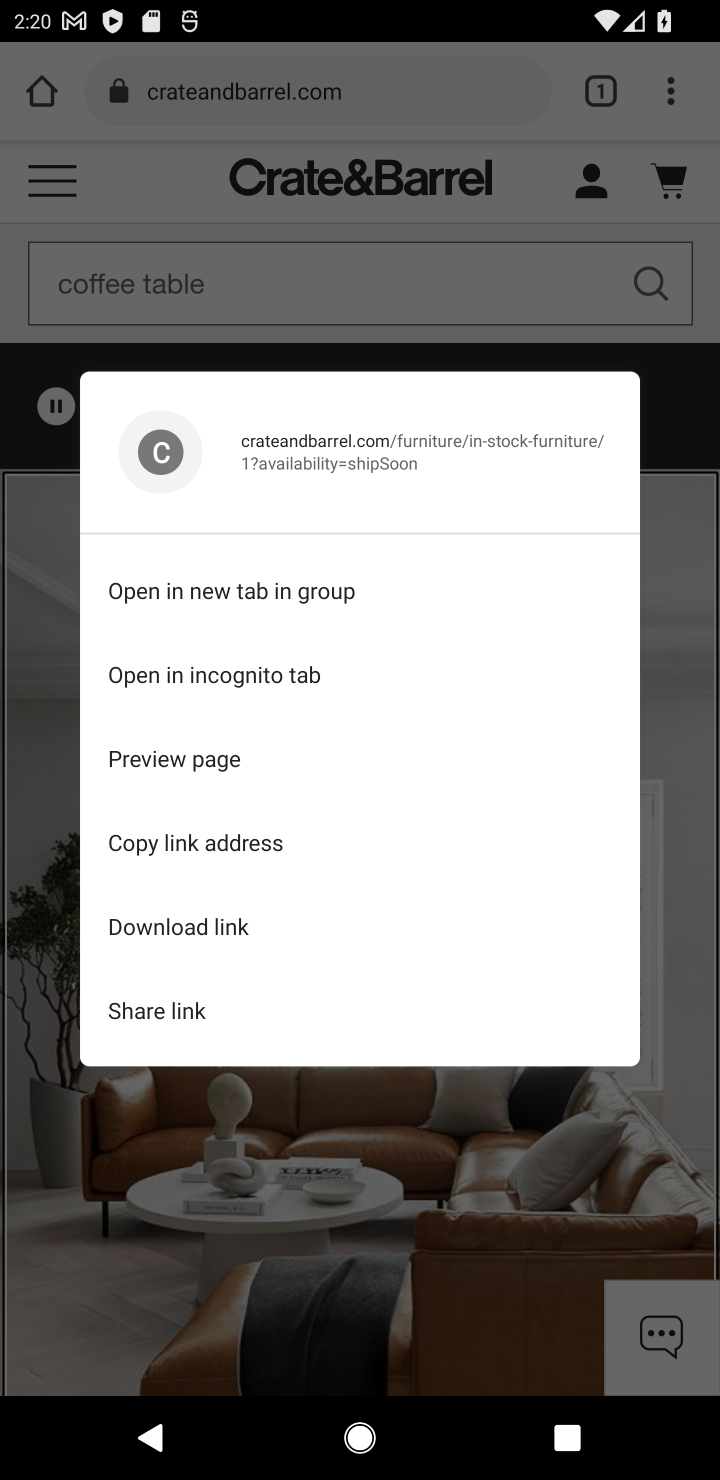
Step 31: click (698, 682)
Your task to perform on an android device: Search for the best coffee tables on Crate & Barrel Image 32: 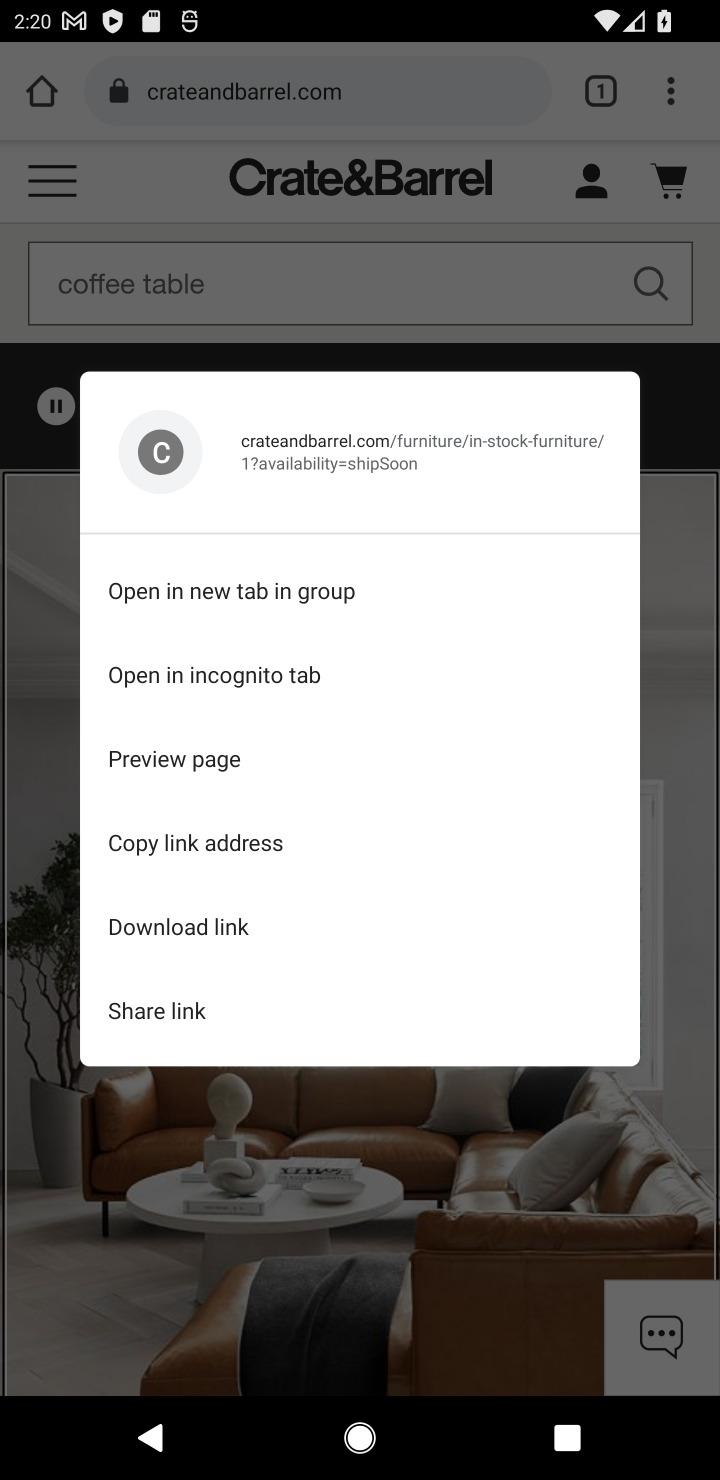
Step 32: click (683, 694)
Your task to perform on an android device: Search for the best coffee tables on Crate & Barrel Image 33: 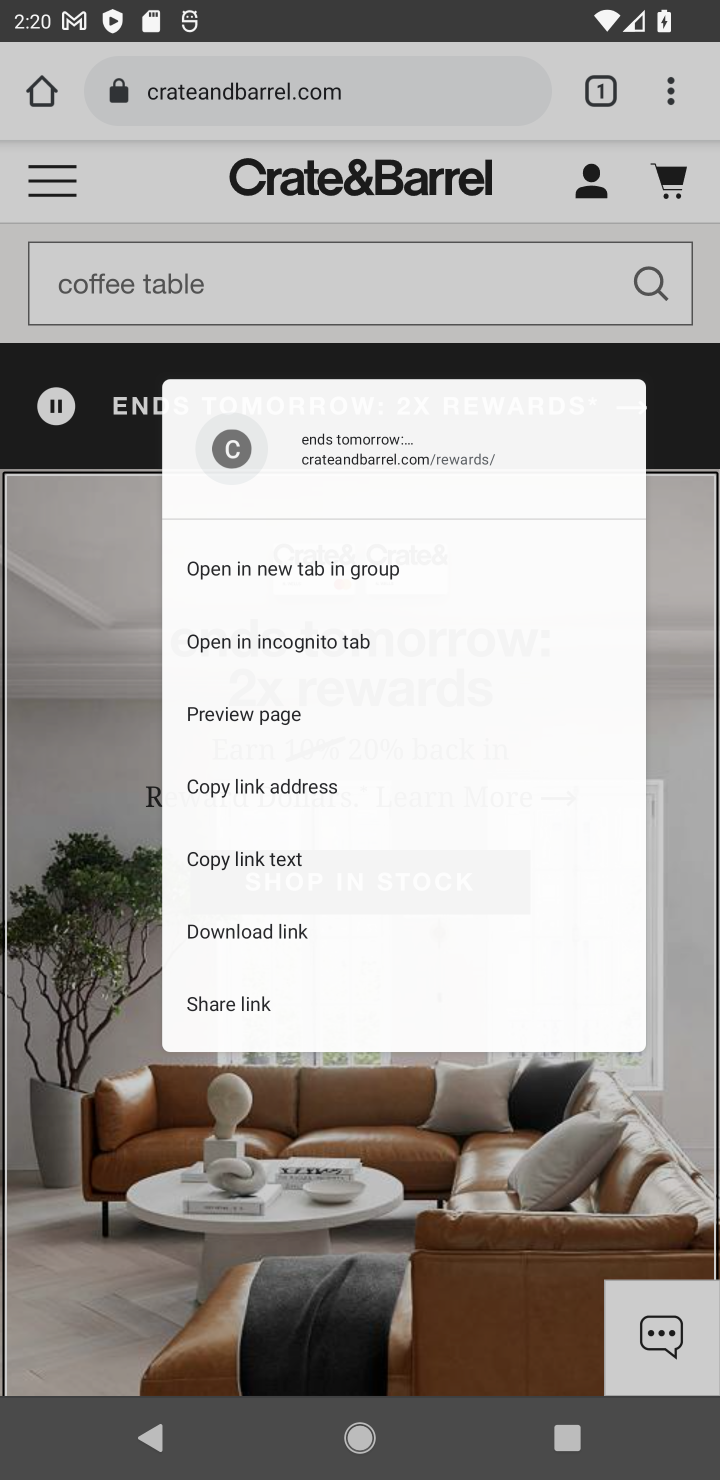
Step 33: click (644, 276)
Your task to perform on an android device: Search for the best coffee tables on Crate & Barrel Image 34: 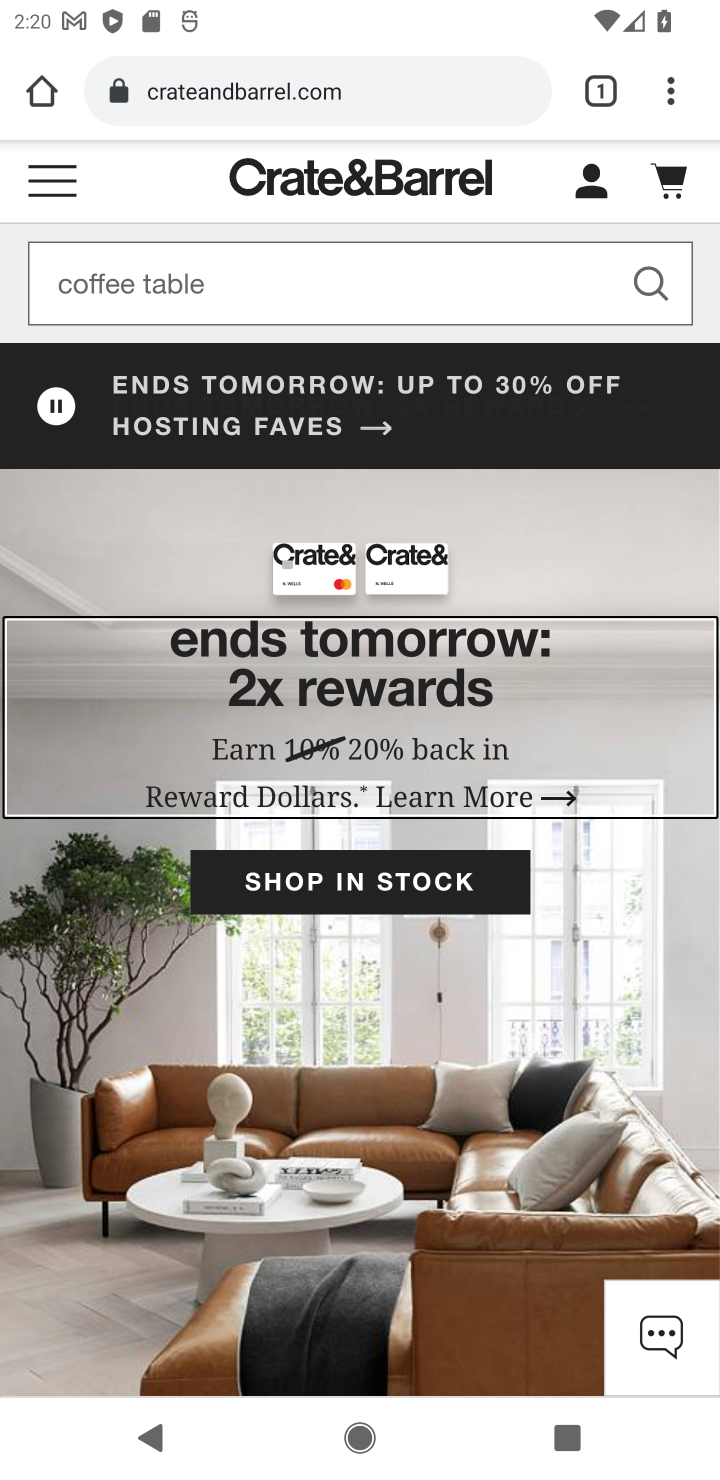
Step 34: click (647, 274)
Your task to perform on an android device: Search for the best coffee tables on Crate & Barrel Image 35: 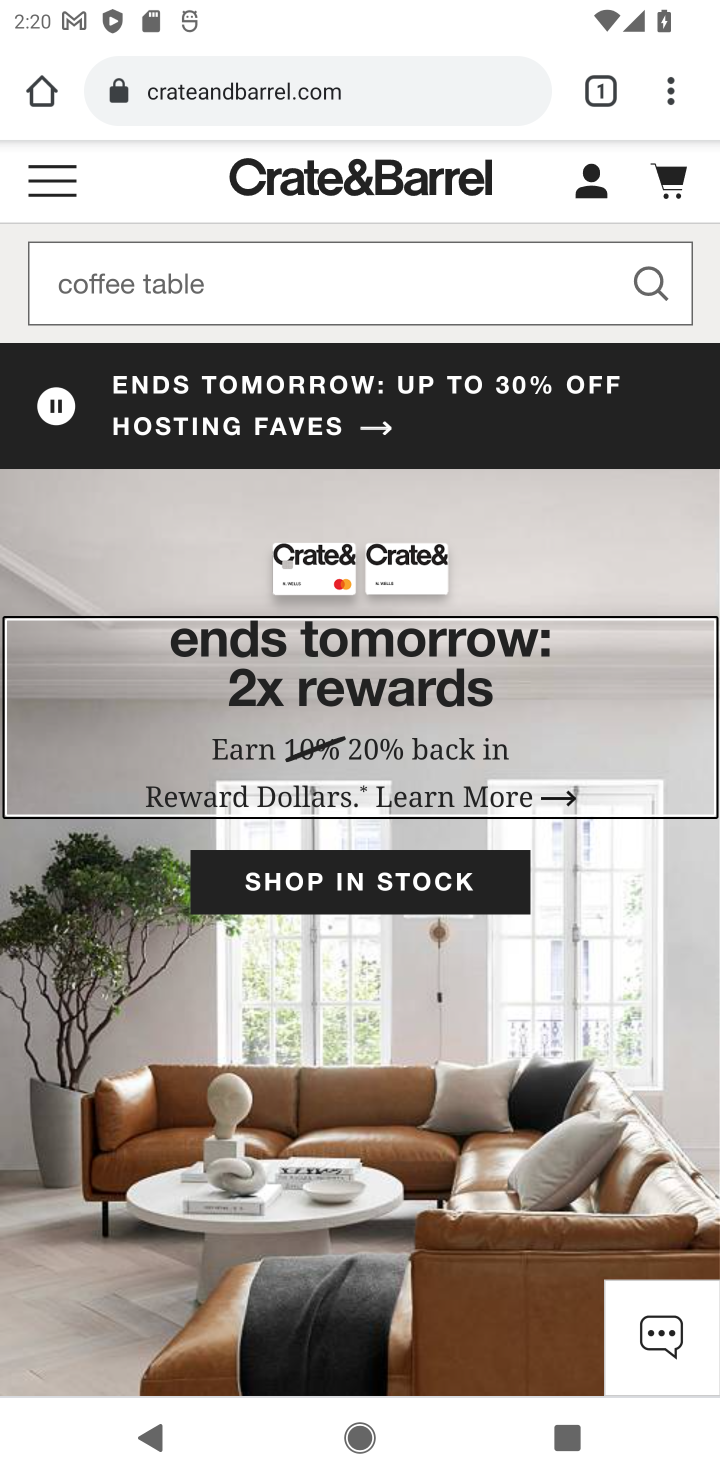
Step 35: click (645, 272)
Your task to perform on an android device: Search for the best coffee tables on Crate & Barrel Image 36: 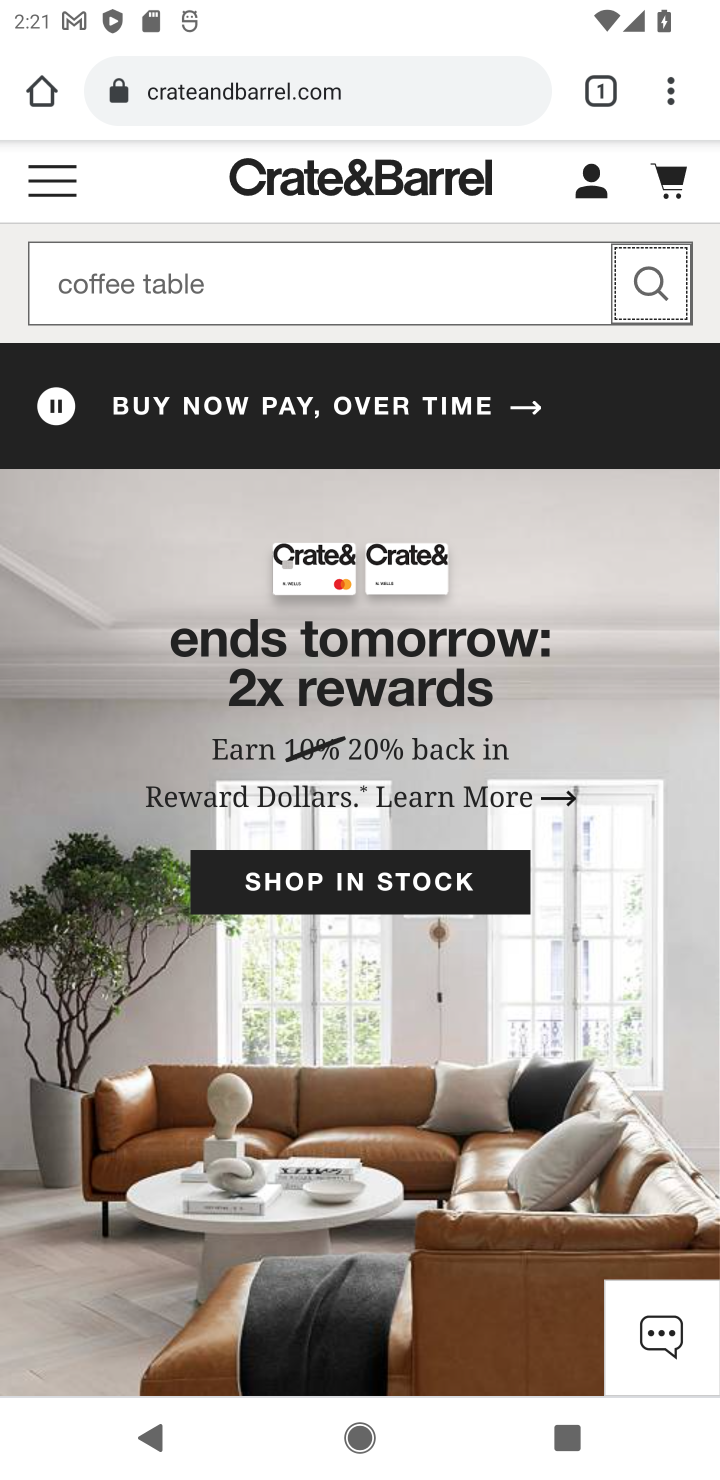
Step 36: click (643, 272)
Your task to perform on an android device: Search for the best coffee tables on Crate & Barrel Image 37: 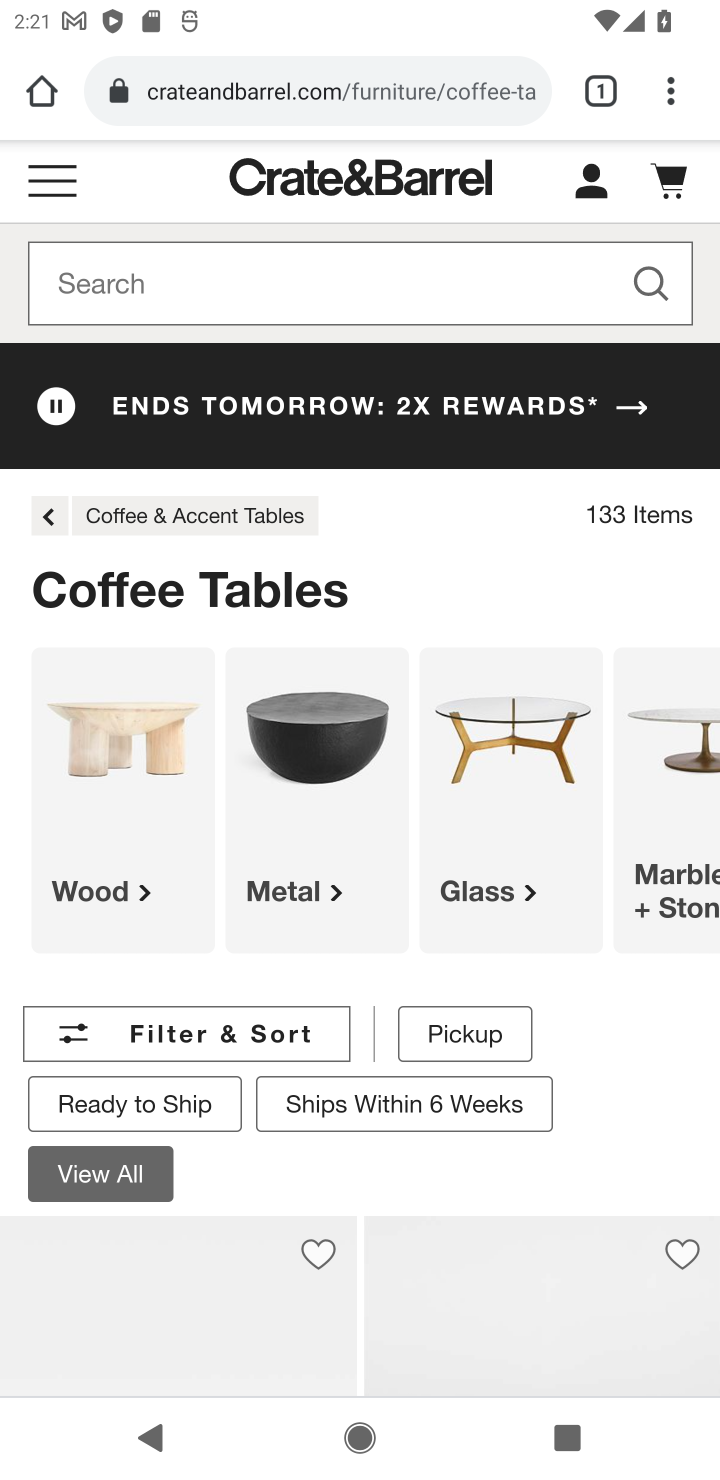
Step 37: drag from (446, 1206) to (505, 592)
Your task to perform on an android device: Search for the best coffee tables on Crate & Barrel Image 38: 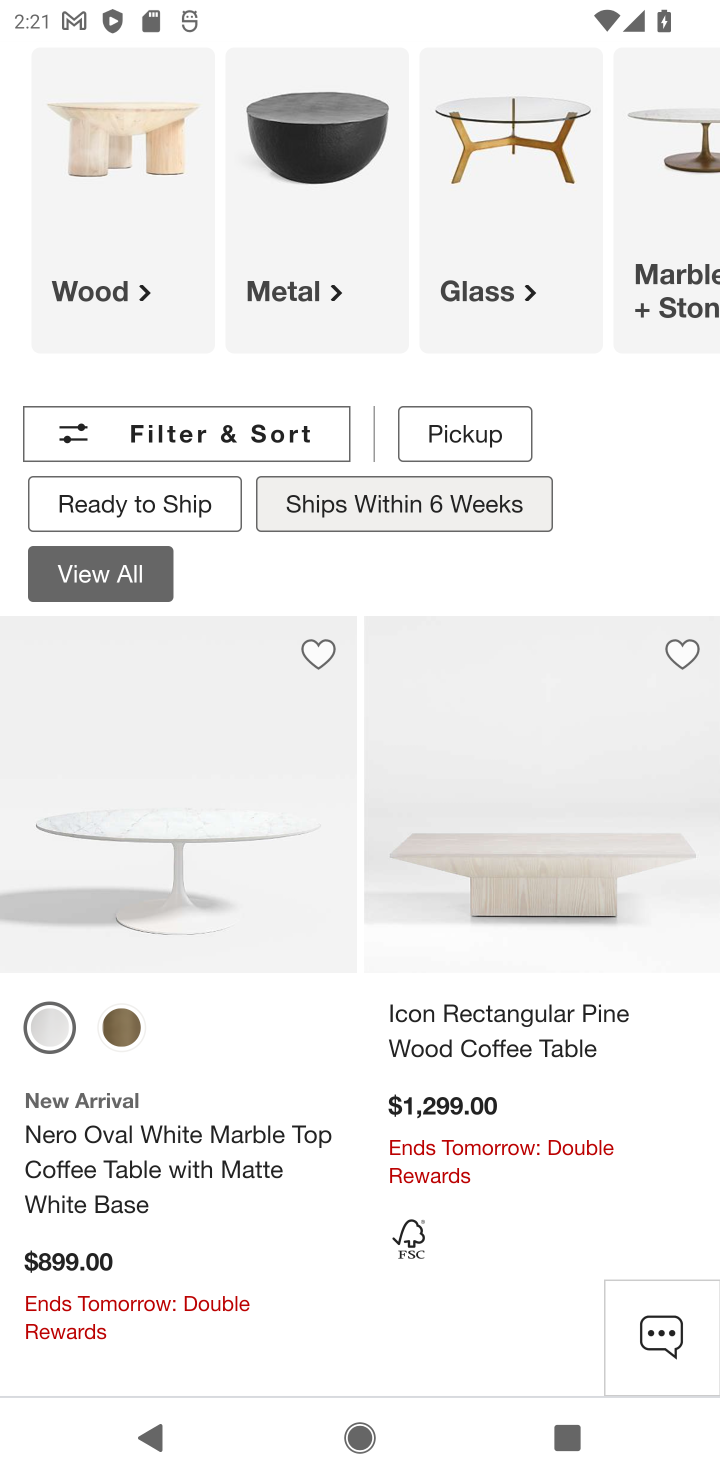
Step 38: click (163, 426)
Your task to perform on an android device: Search for the best coffee tables on Crate & Barrel Image 39: 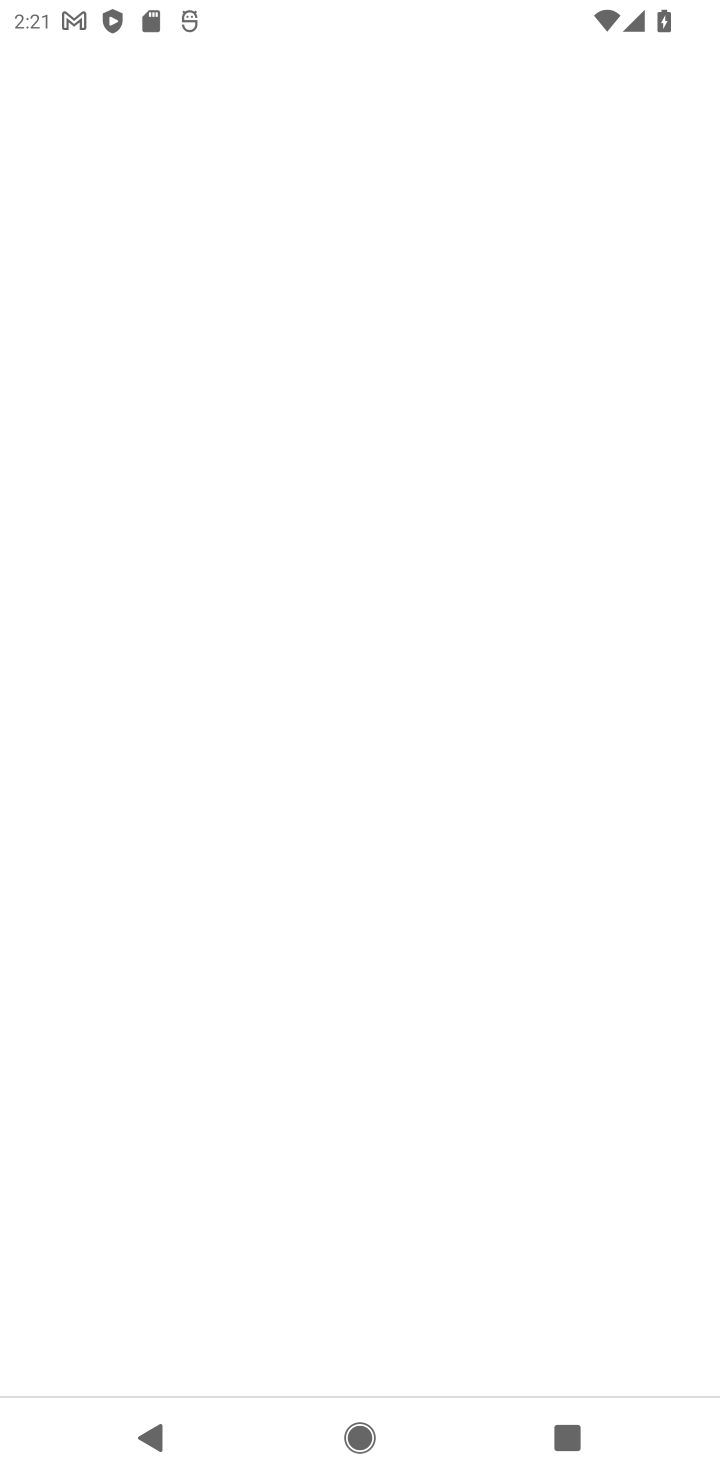
Step 39: press back button
Your task to perform on an android device: Search for the best coffee tables on Crate & Barrel Image 40: 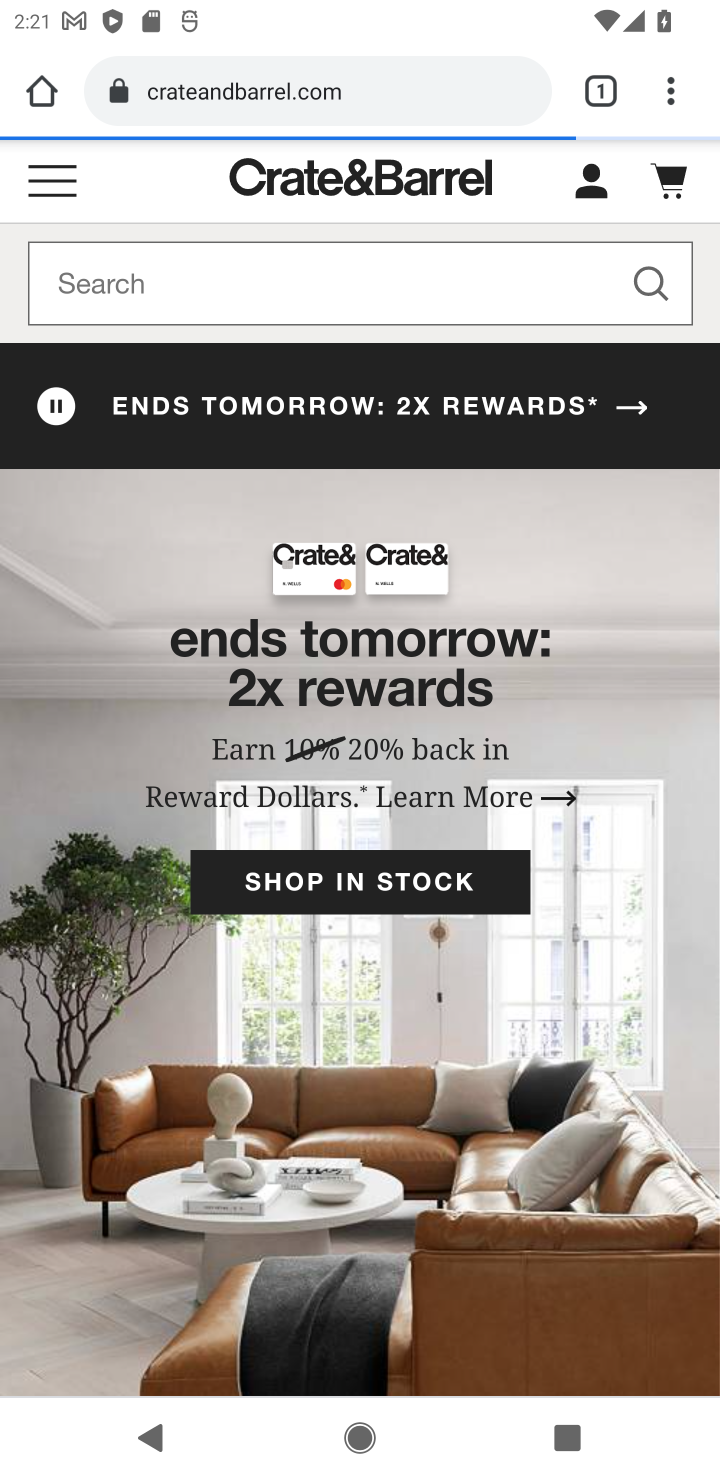
Step 40: click (112, 278)
Your task to perform on an android device: Search for the best coffee tables on Crate & Barrel Image 41: 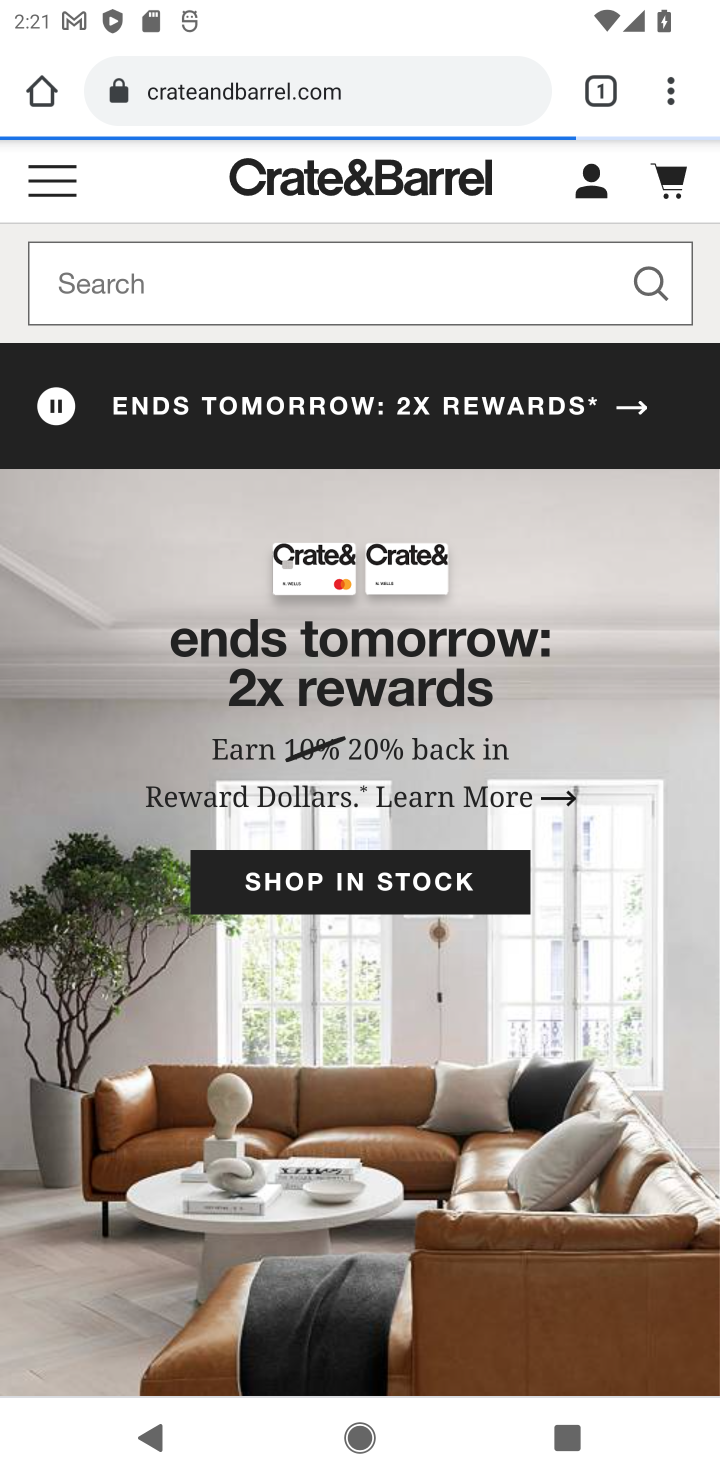
Step 41: click (200, 276)
Your task to perform on an android device: Search for the best coffee tables on Crate & Barrel Image 42: 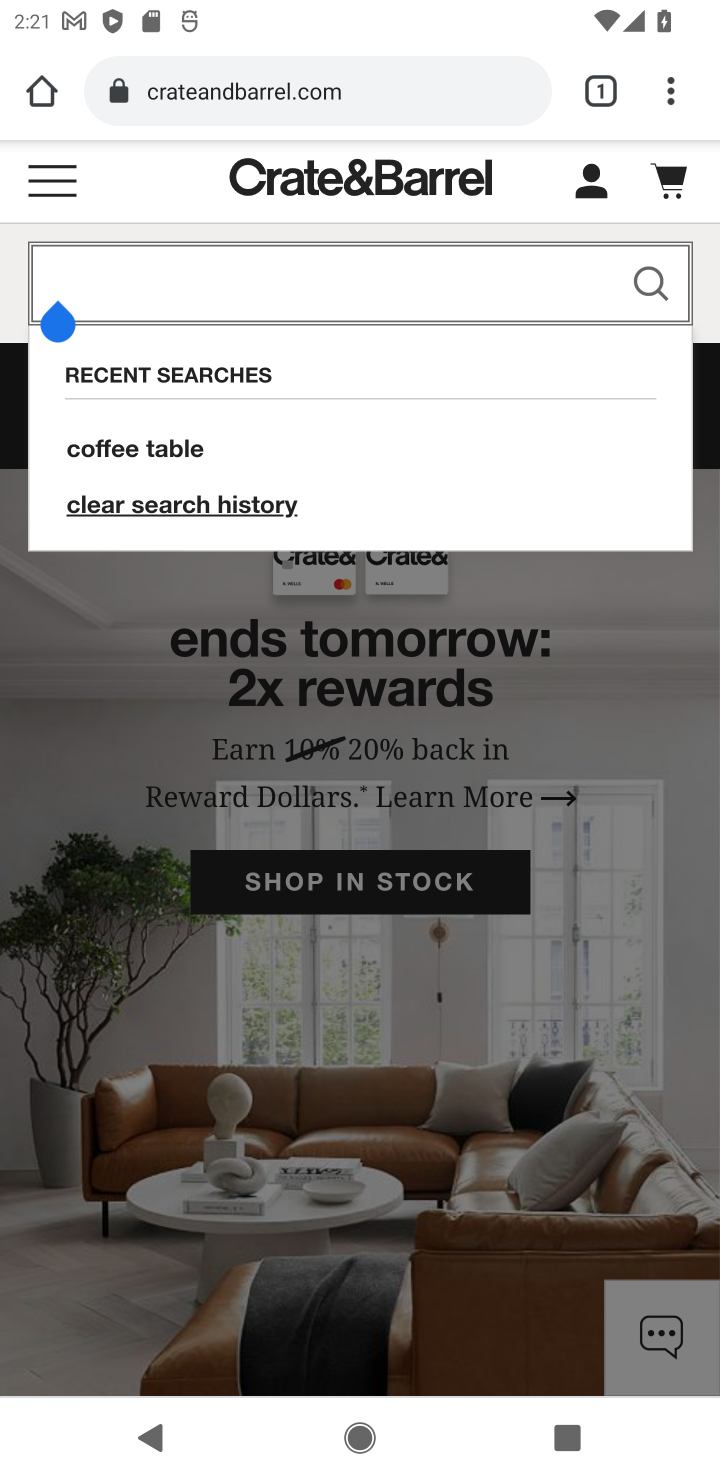
Step 42: click (202, 290)
Your task to perform on an android device: Search for the best coffee tables on Crate & Barrel Image 43: 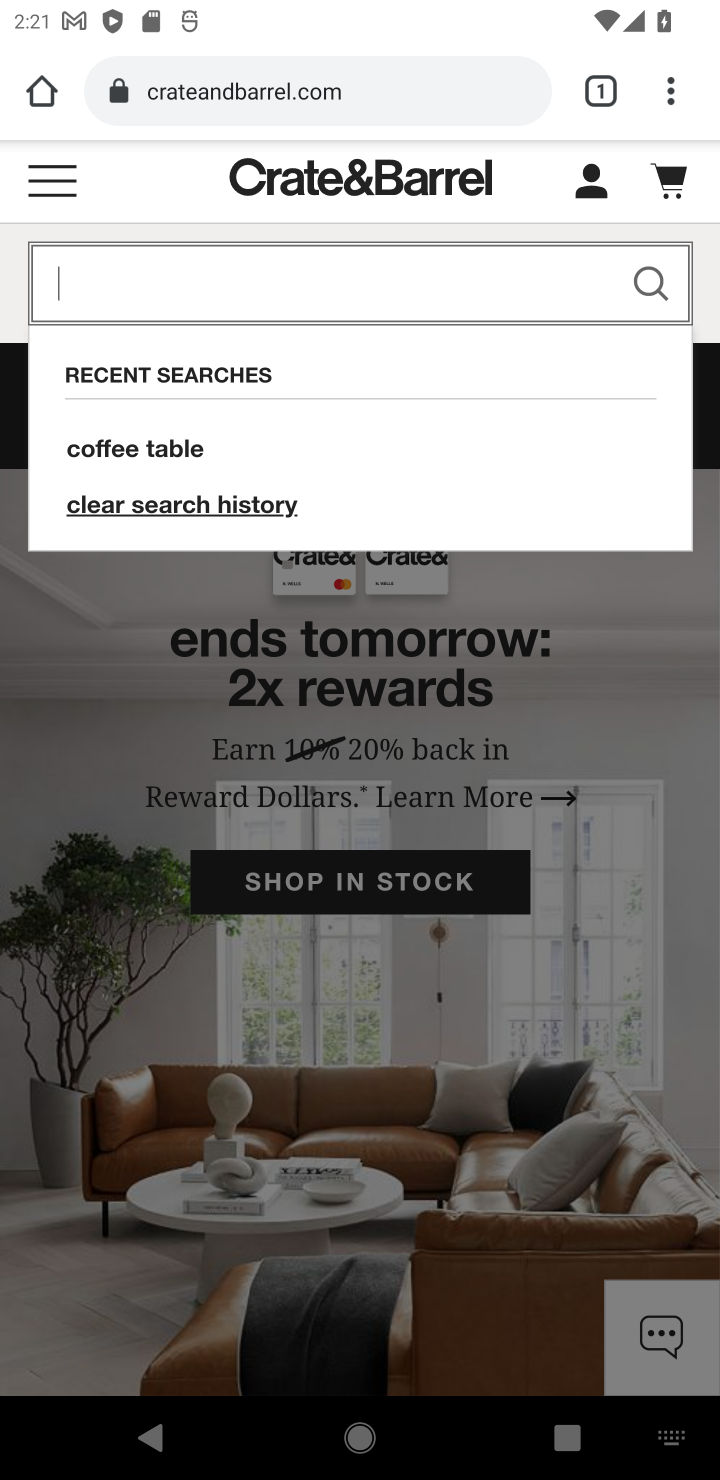
Step 43: click (87, 438)
Your task to perform on an android device: Search for the best coffee tables on Crate & Barrel Image 44: 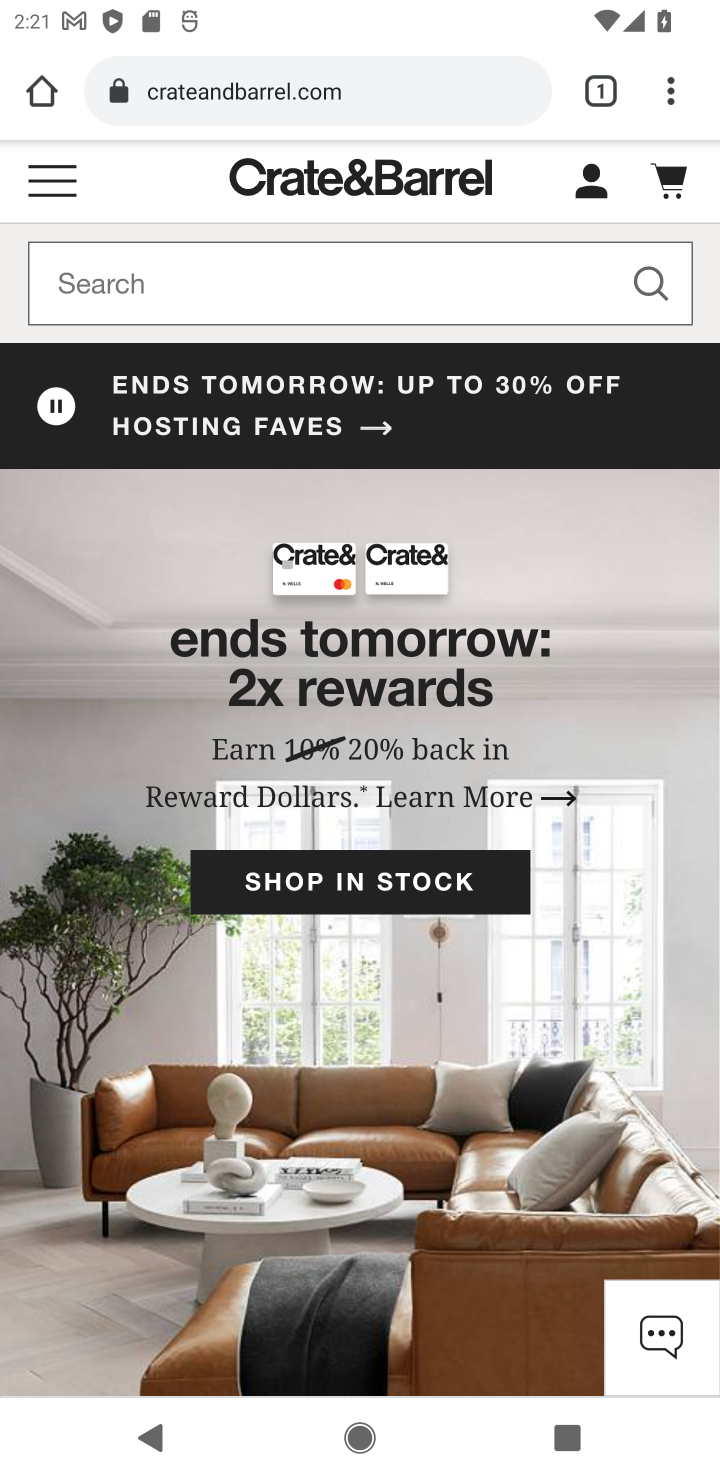
Step 44: click (168, 450)
Your task to perform on an android device: Search for the best coffee tables on Crate & Barrel Image 45: 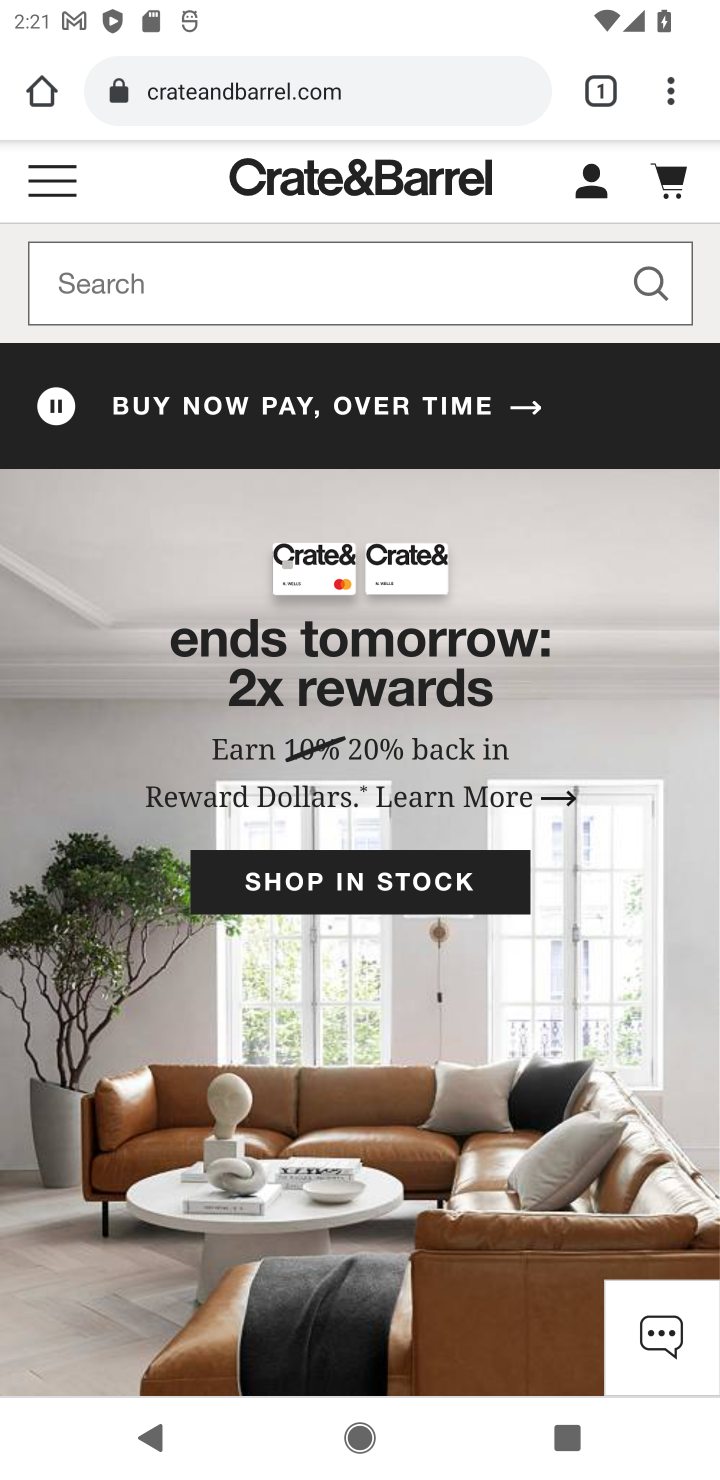
Step 45: click (644, 280)
Your task to perform on an android device: Search for the best coffee tables on Crate & Barrel Image 46: 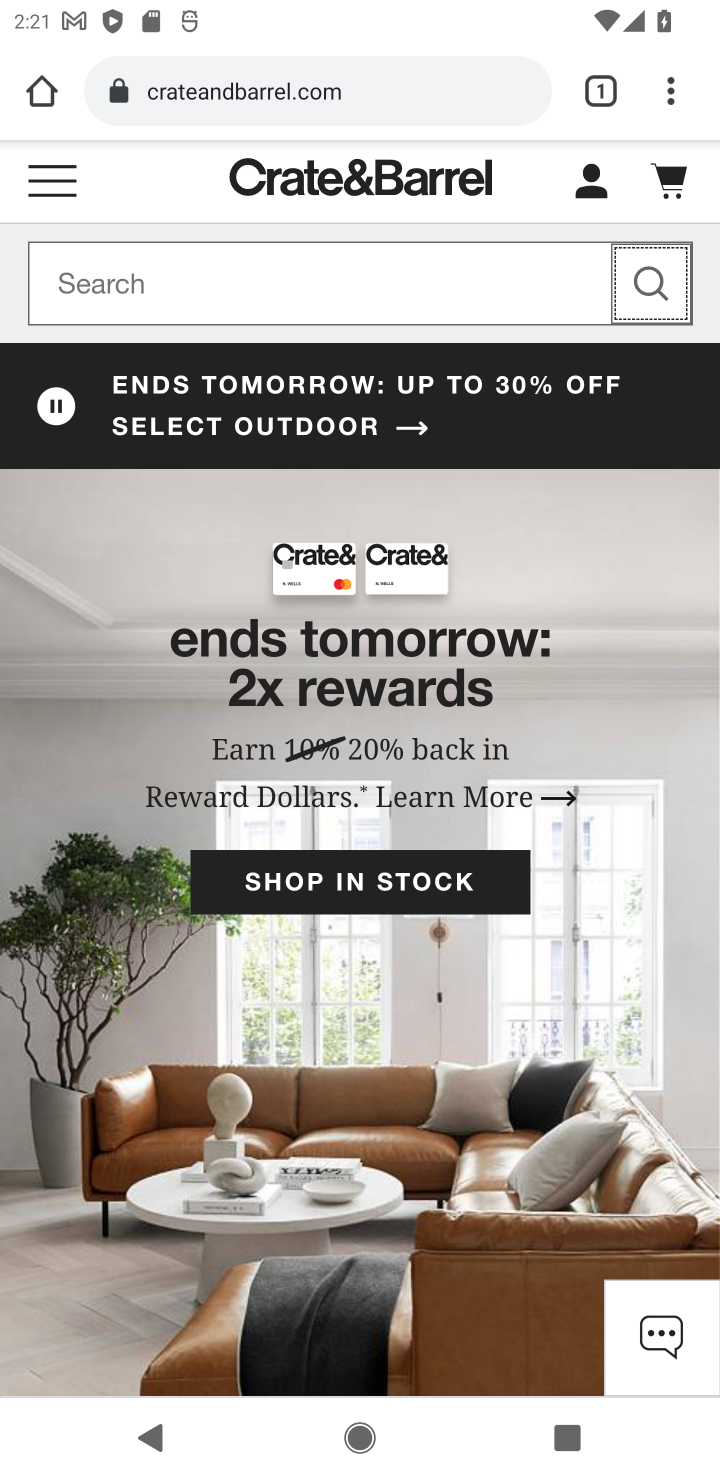
Step 46: click (133, 289)
Your task to perform on an android device: Search for the best coffee tables on Crate & Barrel Image 47: 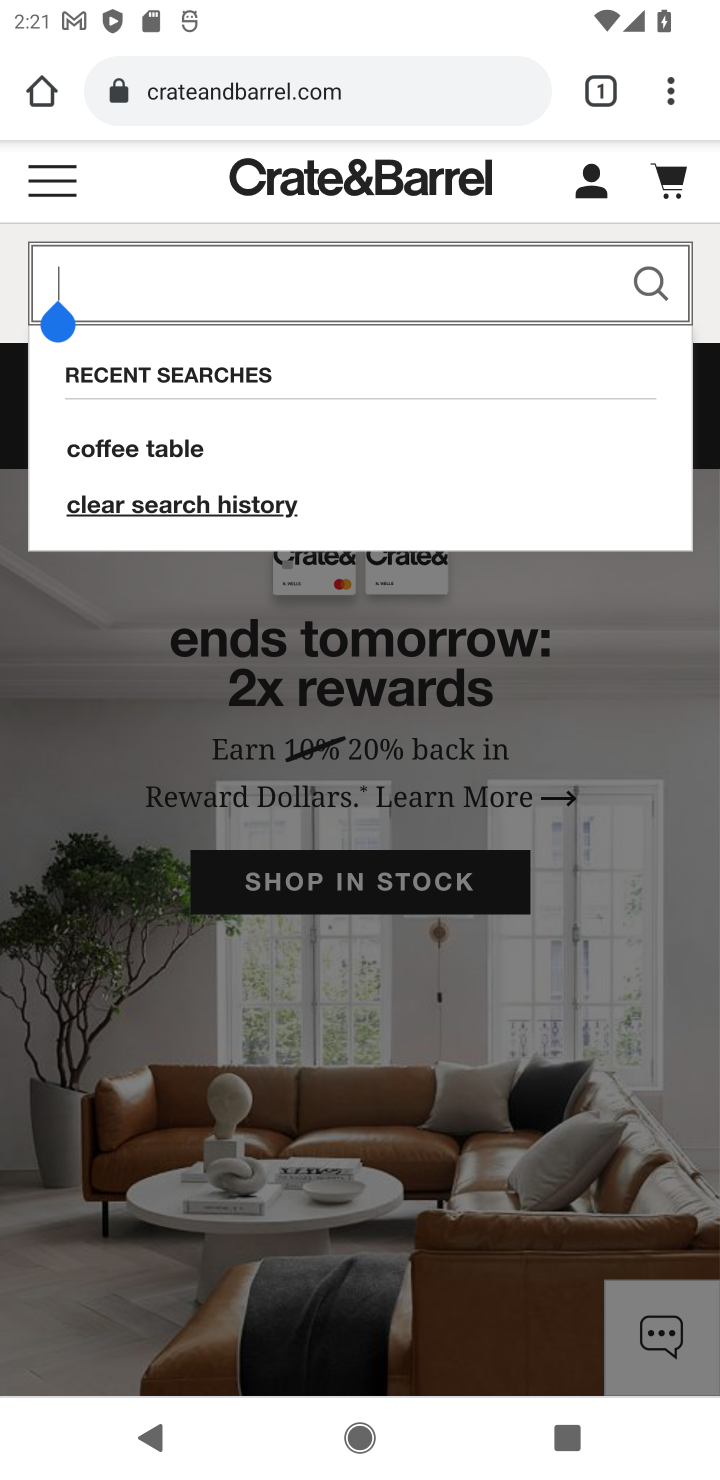
Step 47: click (164, 439)
Your task to perform on an android device: Search for the best coffee tables on Crate & Barrel Image 48: 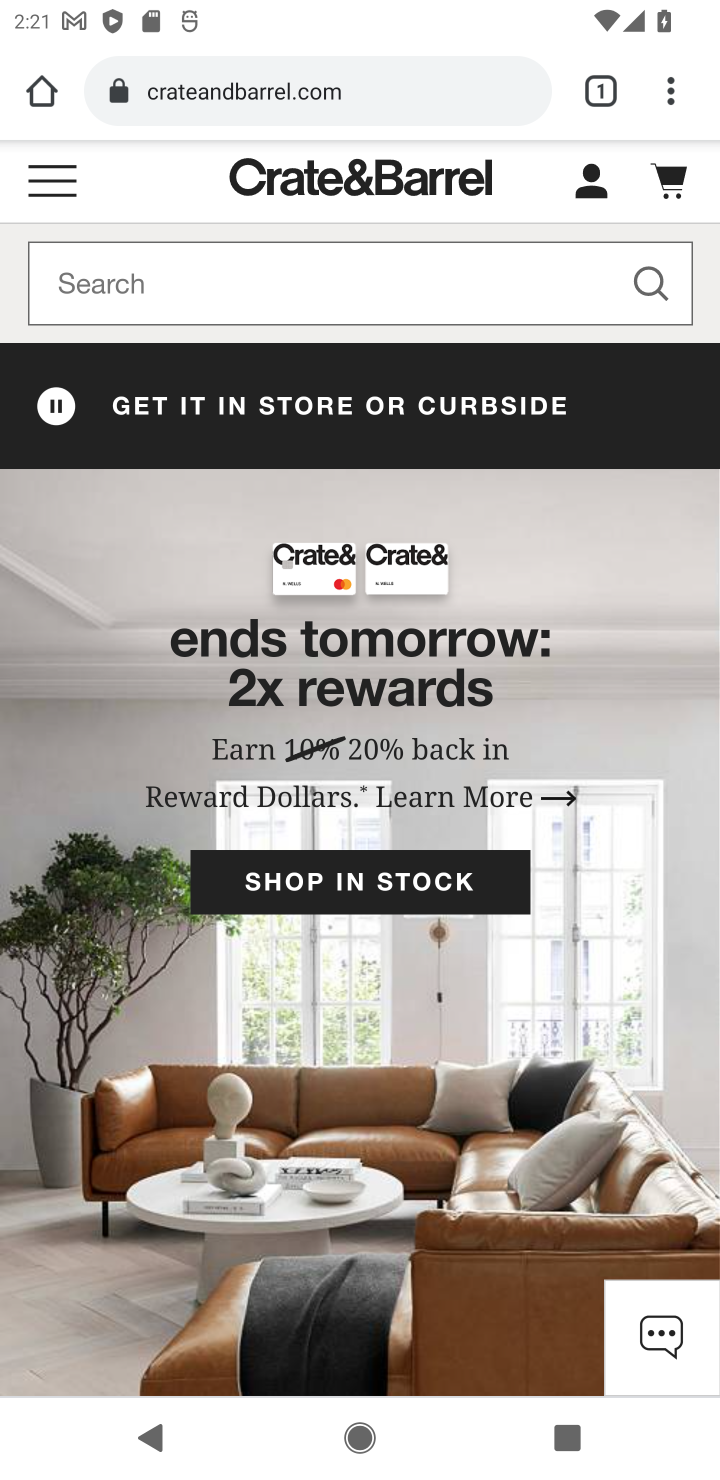
Step 48: drag from (401, 816) to (547, 555)
Your task to perform on an android device: Search for the best coffee tables on Crate & Barrel Image 49: 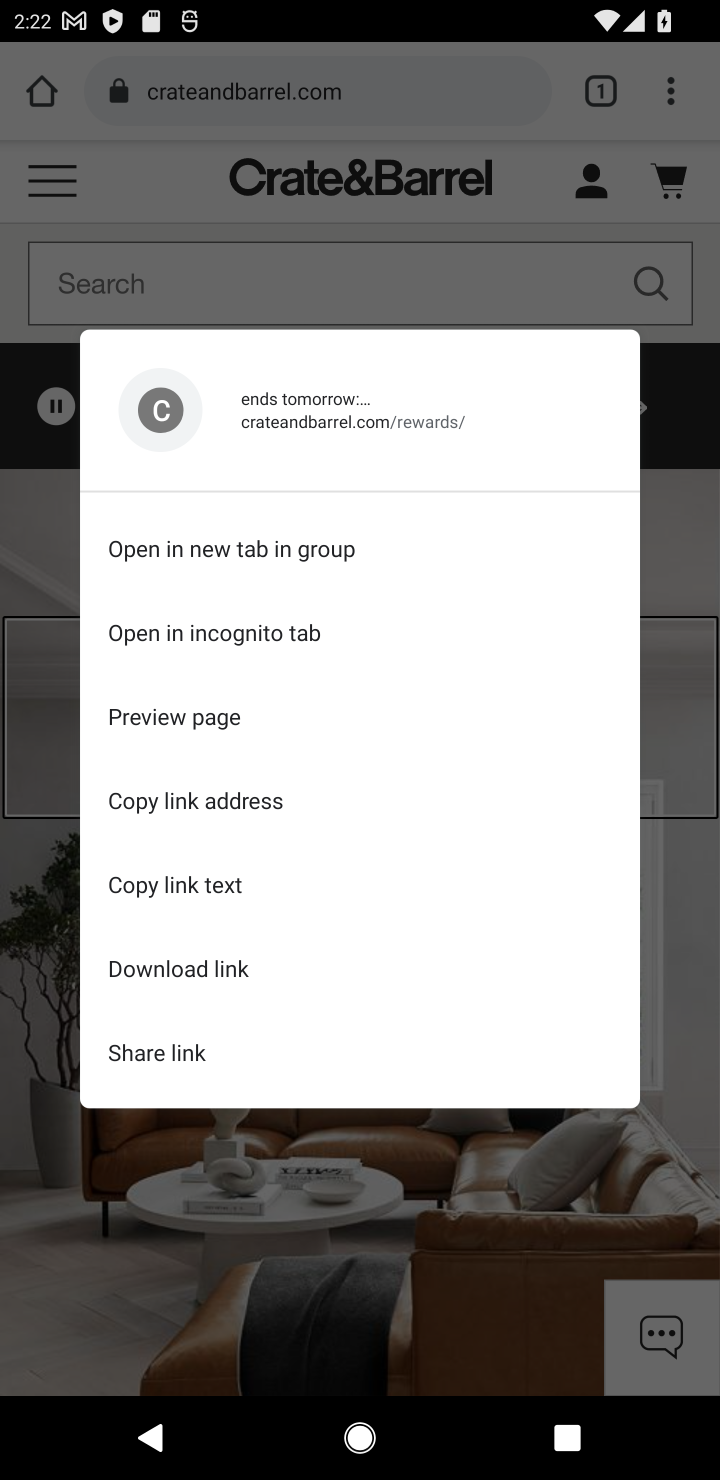
Step 49: click (445, 1159)
Your task to perform on an android device: Search for the best coffee tables on Crate & Barrel Image 50: 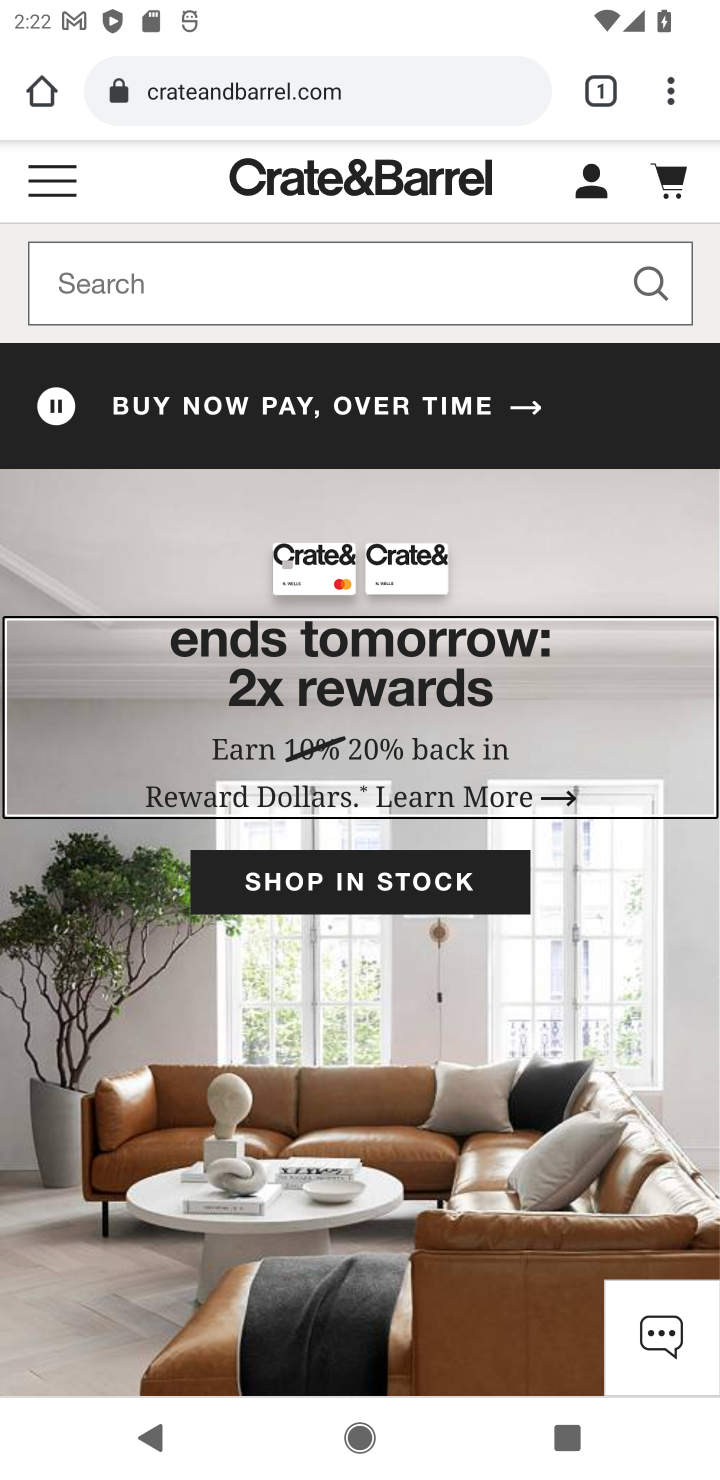
Step 50: type "coffee table"
Your task to perform on an android device: Search for the best coffee tables on Crate & Barrel Image 51: 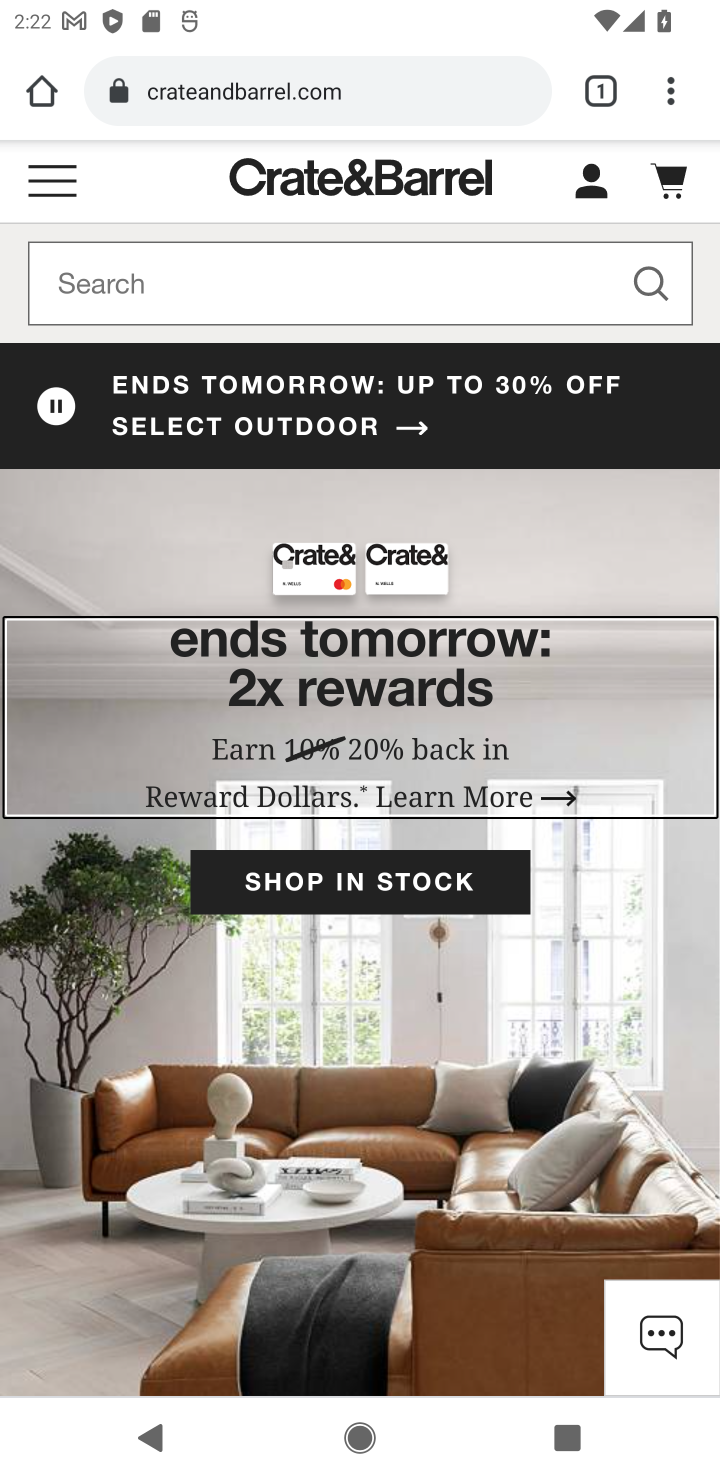
Step 51: type ""
Your task to perform on an android device: Search for the best coffee tables on Crate & Barrel Image 52: 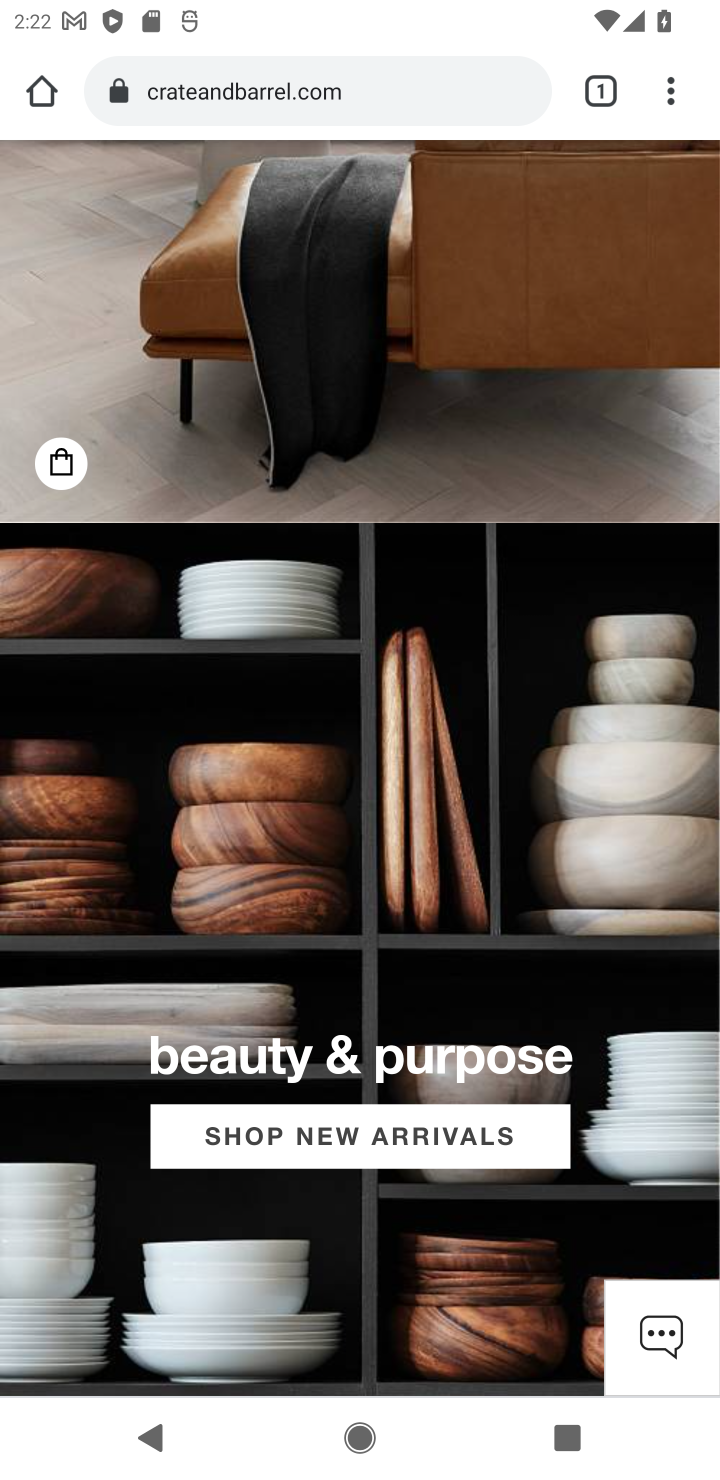
Step 52: task complete